Your task to perform on an android device: Add "bose quietcomfort 35" to the cart on bestbuy, then select checkout. Image 0: 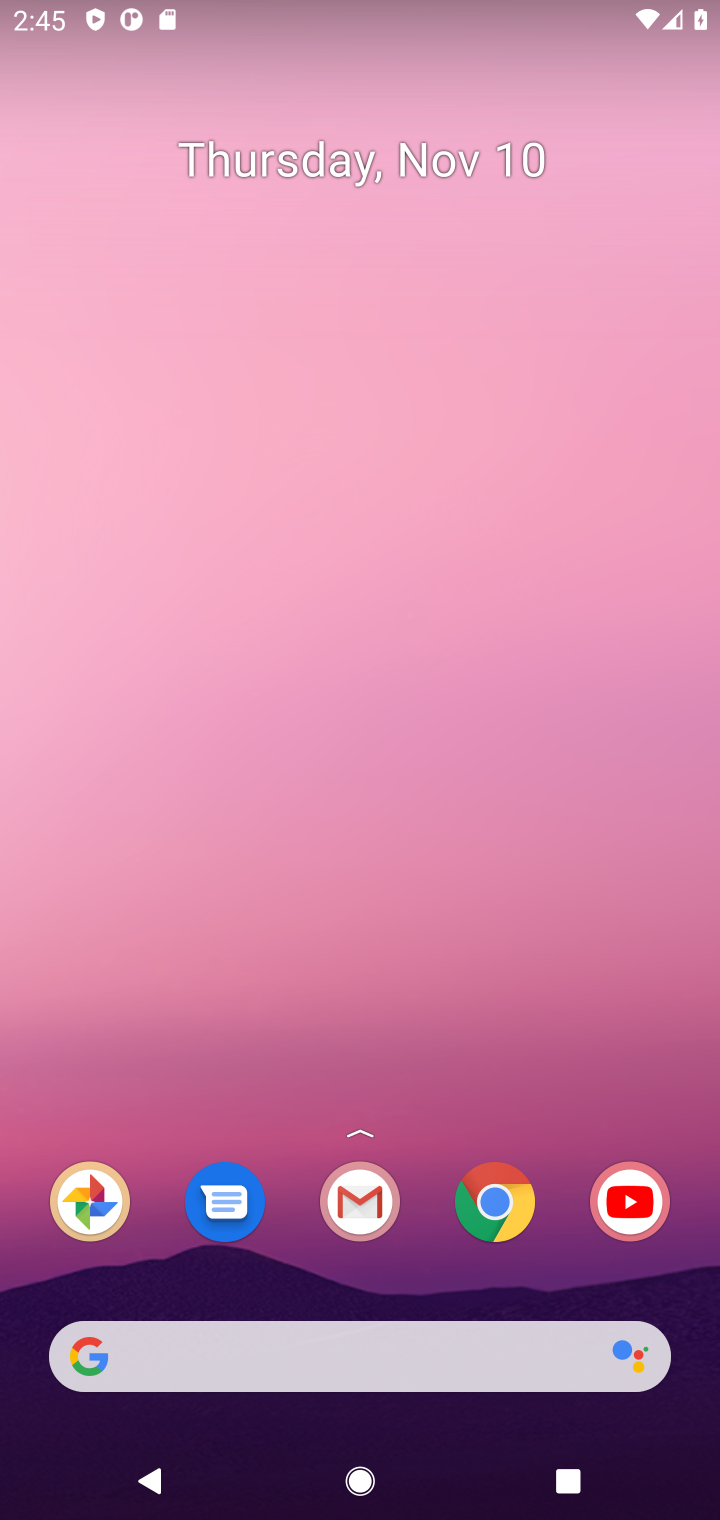
Step 0: click (493, 1184)
Your task to perform on an android device: Add "bose quietcomfort 35" to the cart on bestbuy, then select checkout. Image 1: 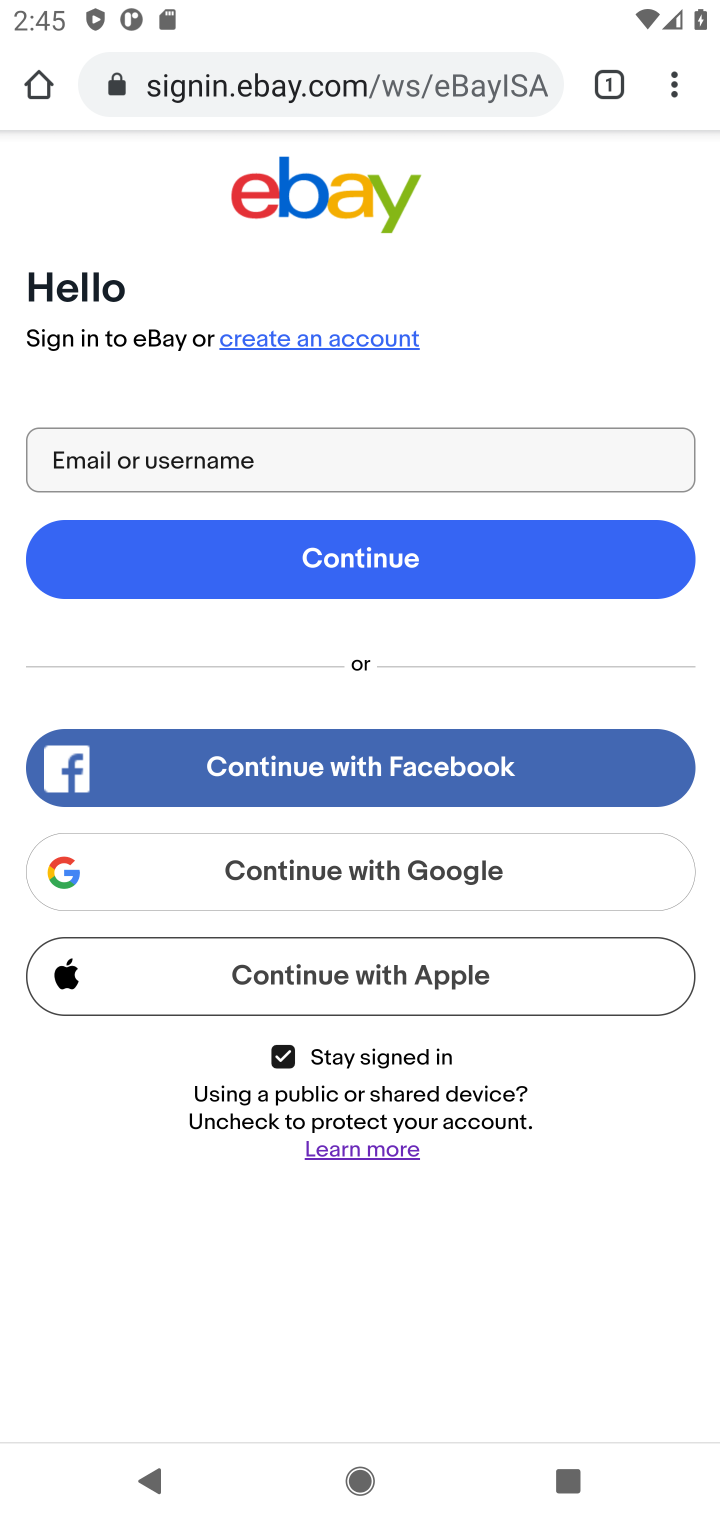
Step 1: click (513, 79)
Your task to perform on an android device: Add "bose quietcomfort 35" to the cart on bestbuy, then select checkout. Image 2: 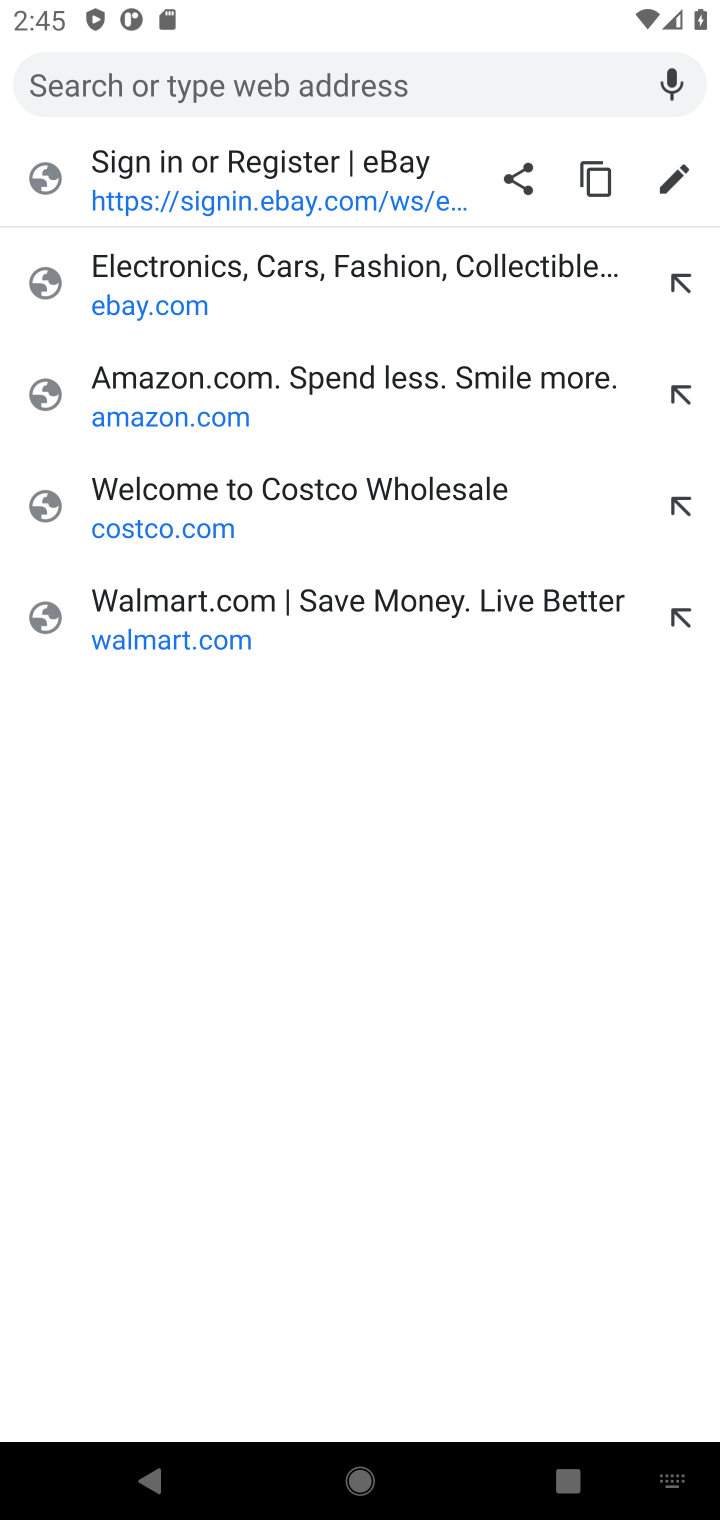
Step 2: type "bestbuy"
Your task to perform on an android device: Add "bose quietcomfort 35" to the cart on bestbuy, then select checkout. Image 3: 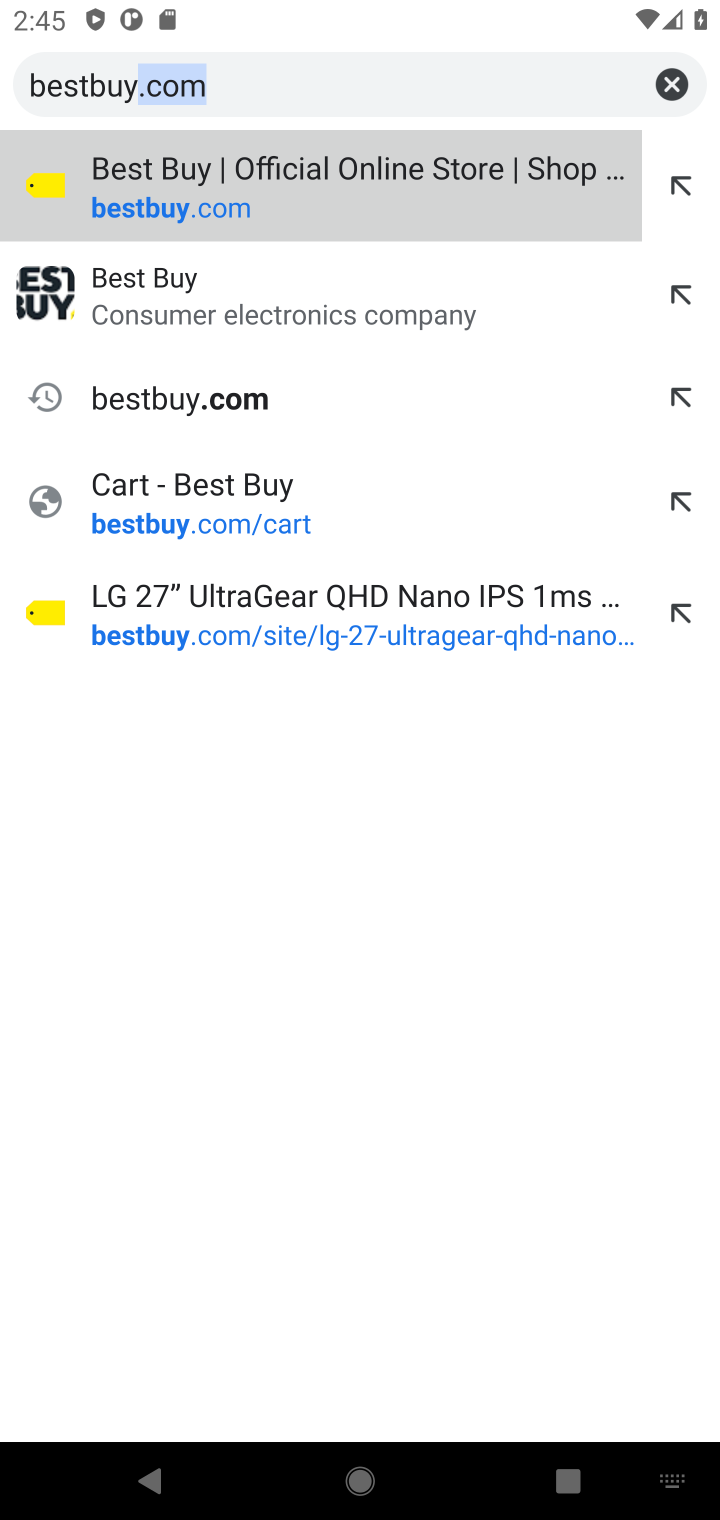
Step 3: click (401, 87)
Your task to perform on an android device: Add "bose quietcomfort 35" to the cart on bestbuy, then select checkout. Image 4: 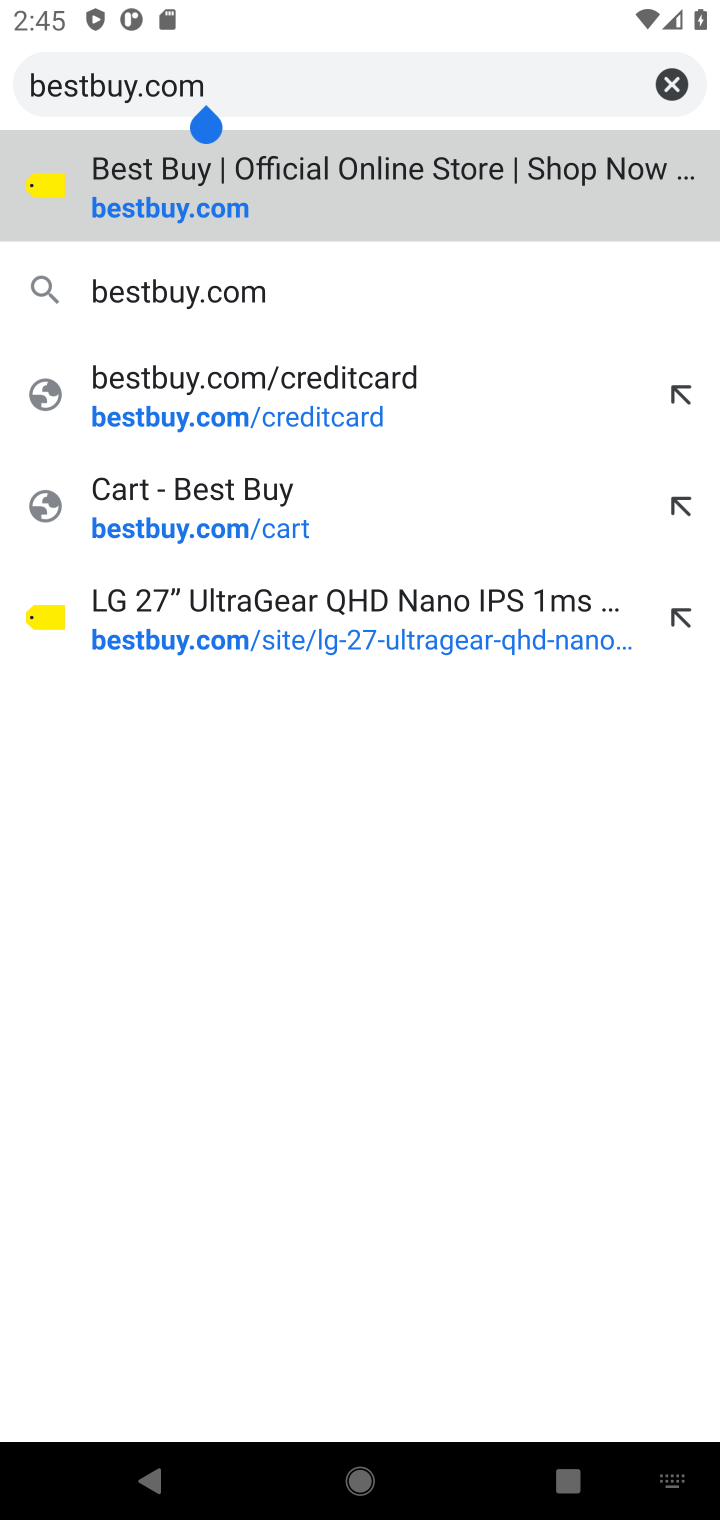
Step 4: click (227, 285)
Your task to perform on an android device: Add "bose quietcomfort 35" to the cart on bestbuy, then select checkout. Image 5: 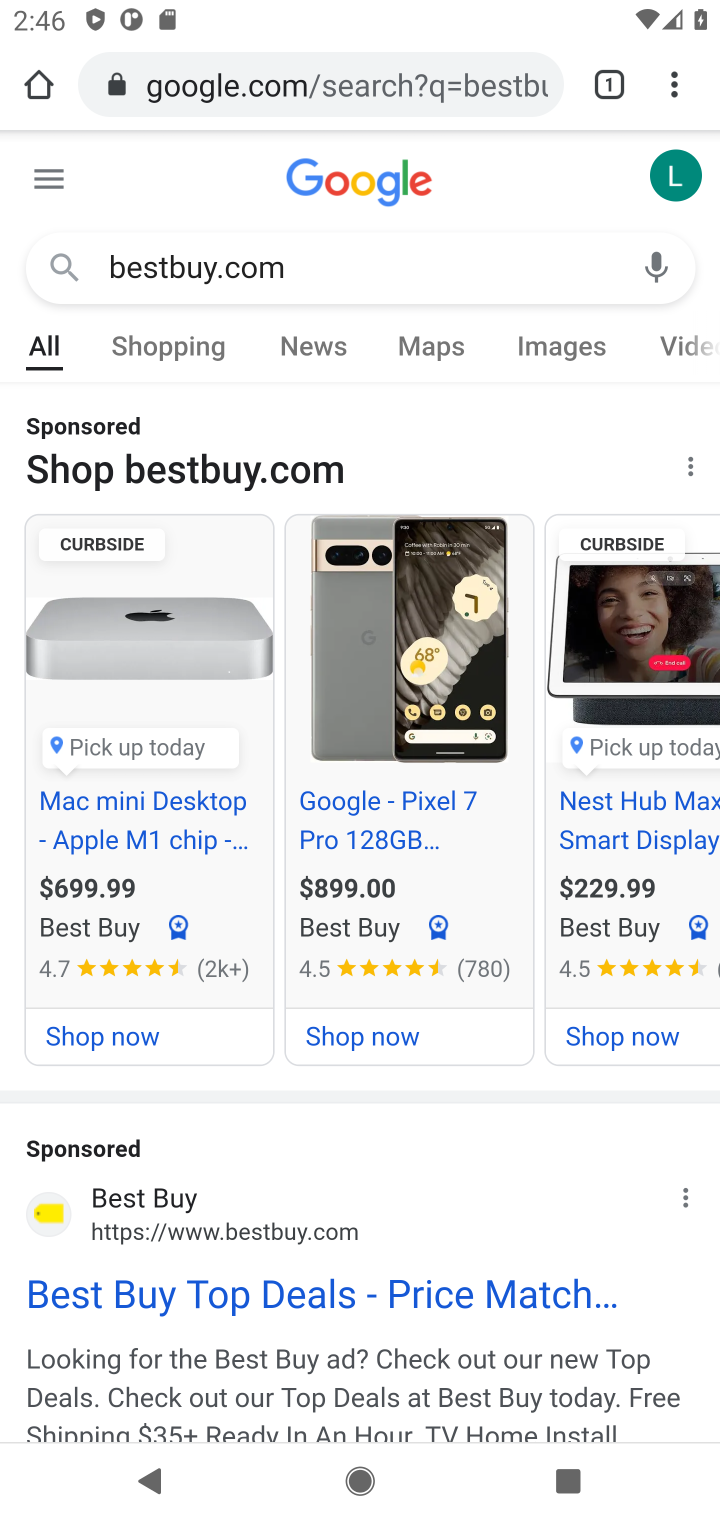
Step 5: click (180, 1236)
Your task to perform on an android device: Add "bose quietcomfort 35" to the cart on bestbuy, then select checkout. Image 6: 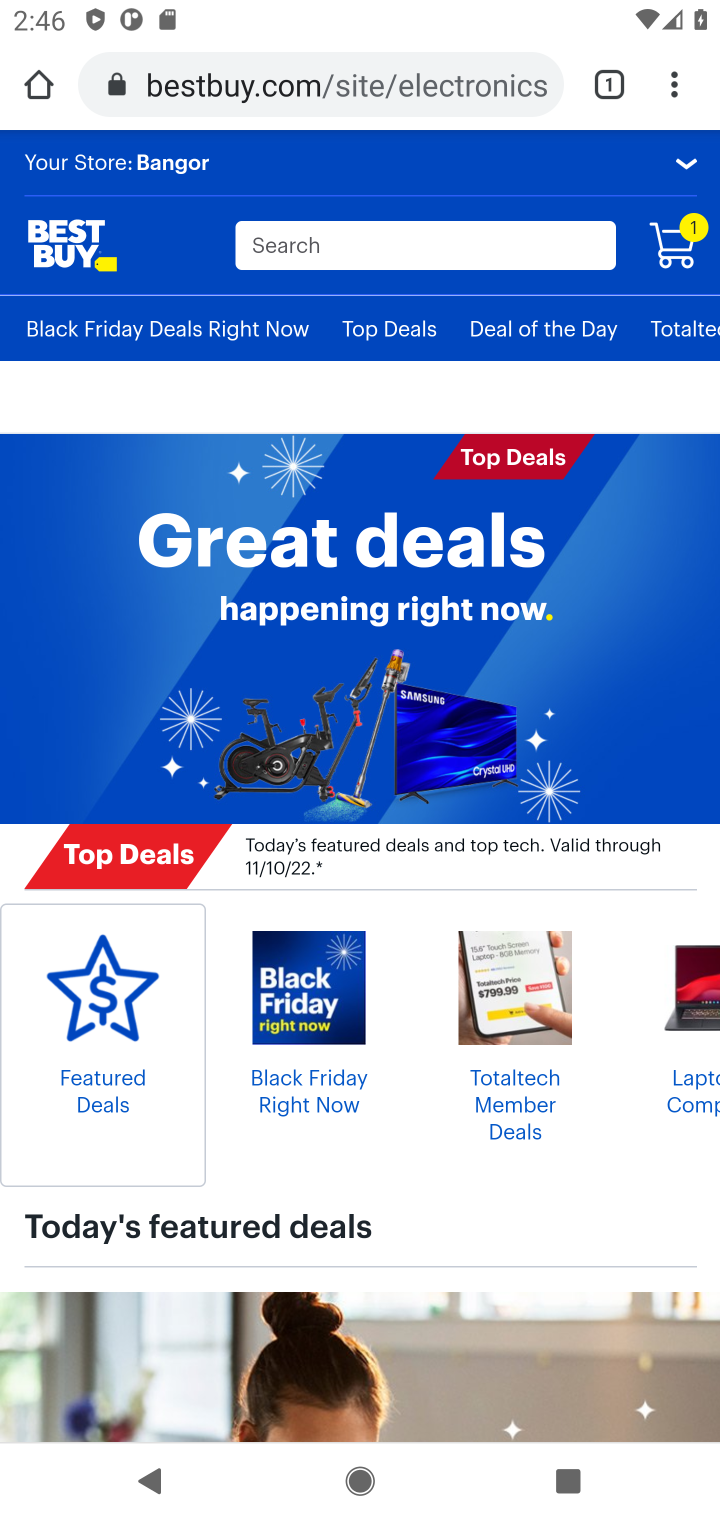
Step 6: click (413, 268)
Your task to perform on an android device: Add "bose quietcomfort 35" to the cart on bestbuy, then select checkout. Image 7: 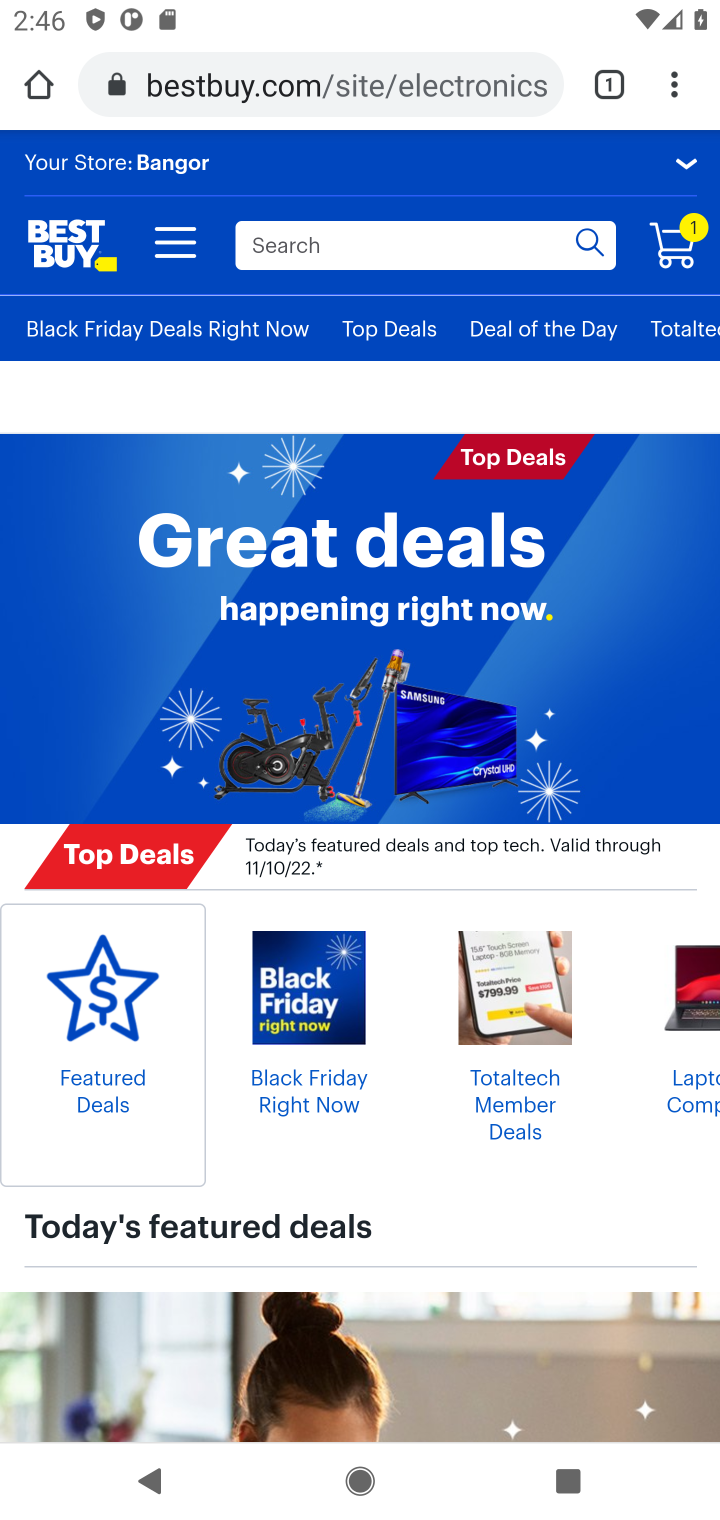
Step 7: click (431, 244)
Your task to perform on an android device: Add "bose quietcomfort 35" to the cart on bestbuy, then select checkout. Image 8: 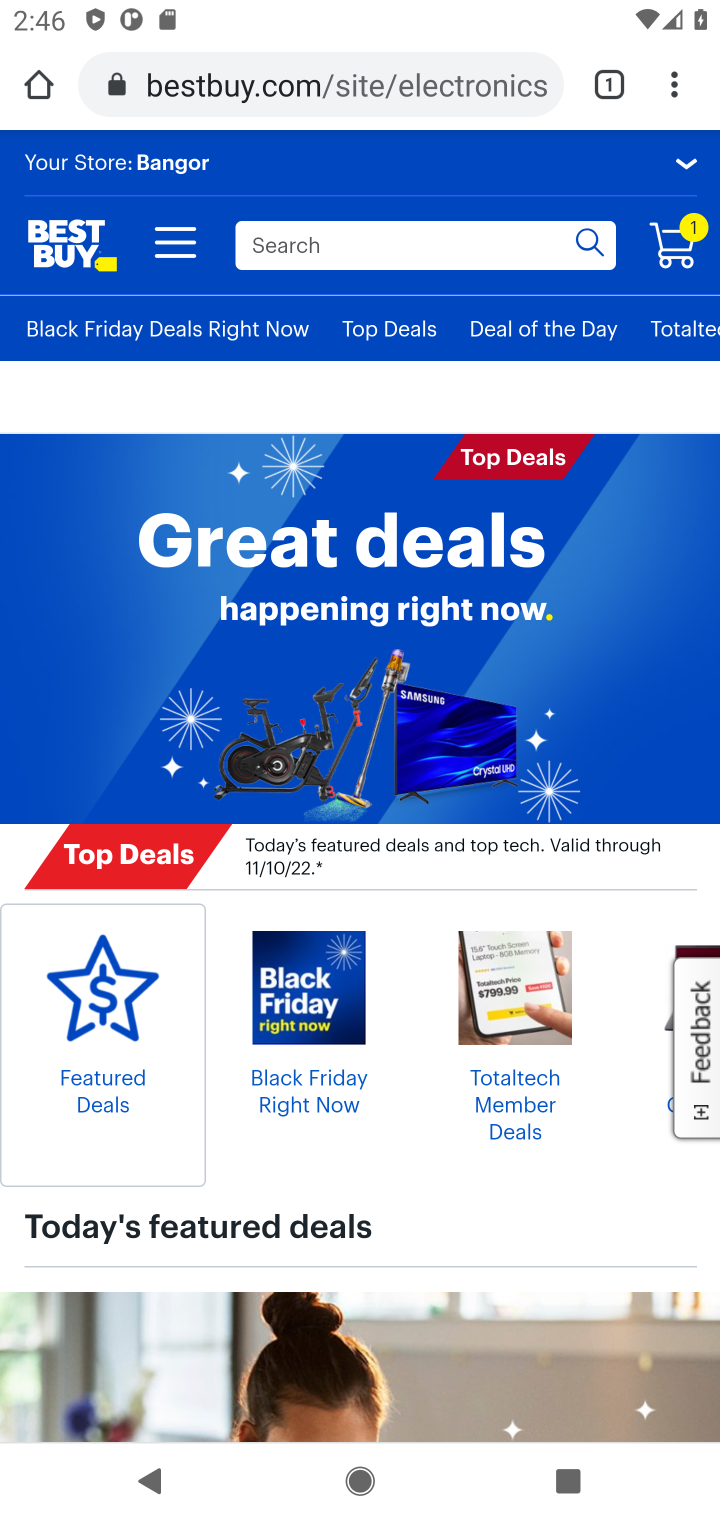
Step 8: type "bose quietcomfort 35"
Your task to perform on an android device: Add "bose quietcomfort 35" to the cart on bestbuy, then select checkout. Image 9: 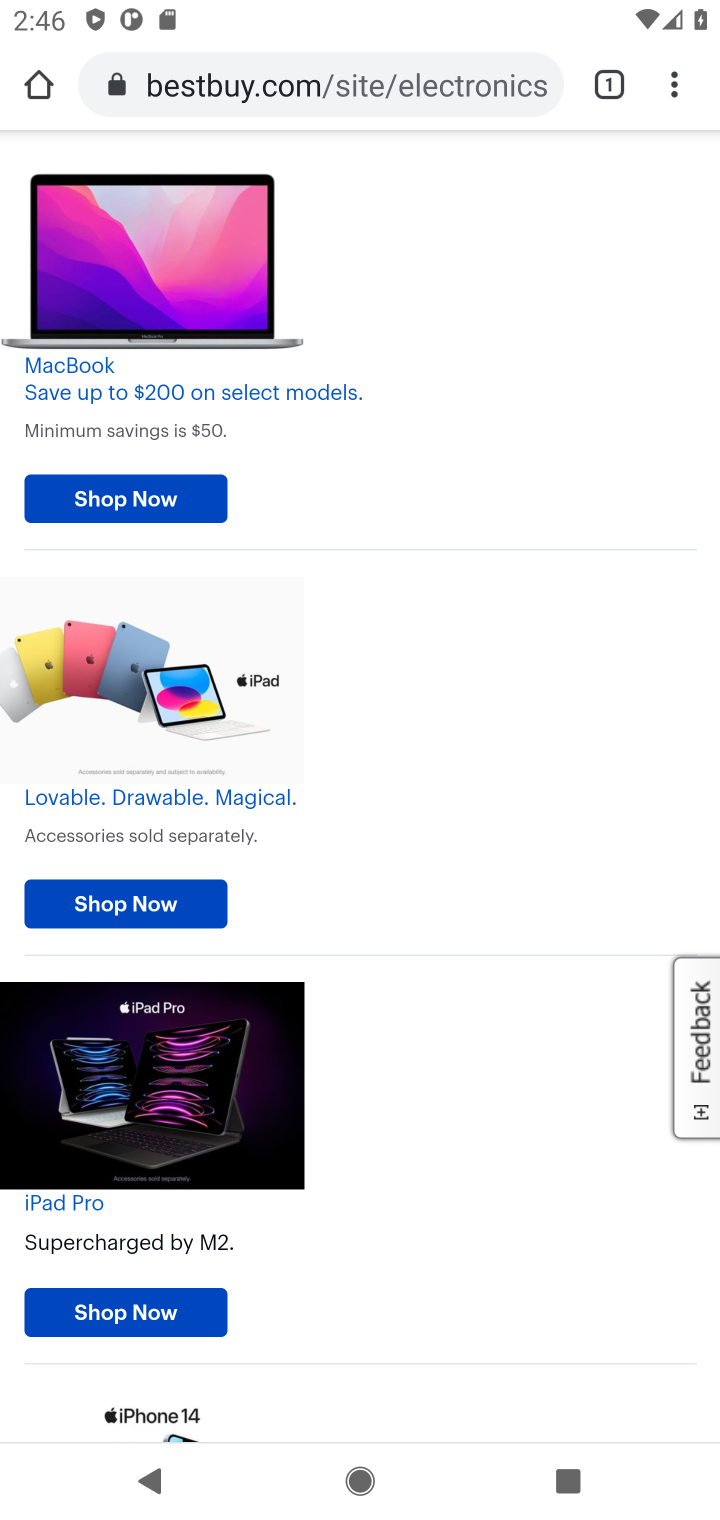
Step 9: drag from (275, 536) to (702, 480)
Your task to perform on an android device: Add "bose quietcomfort 35" to the cart on bestbuy, then select checkout. Image 10: 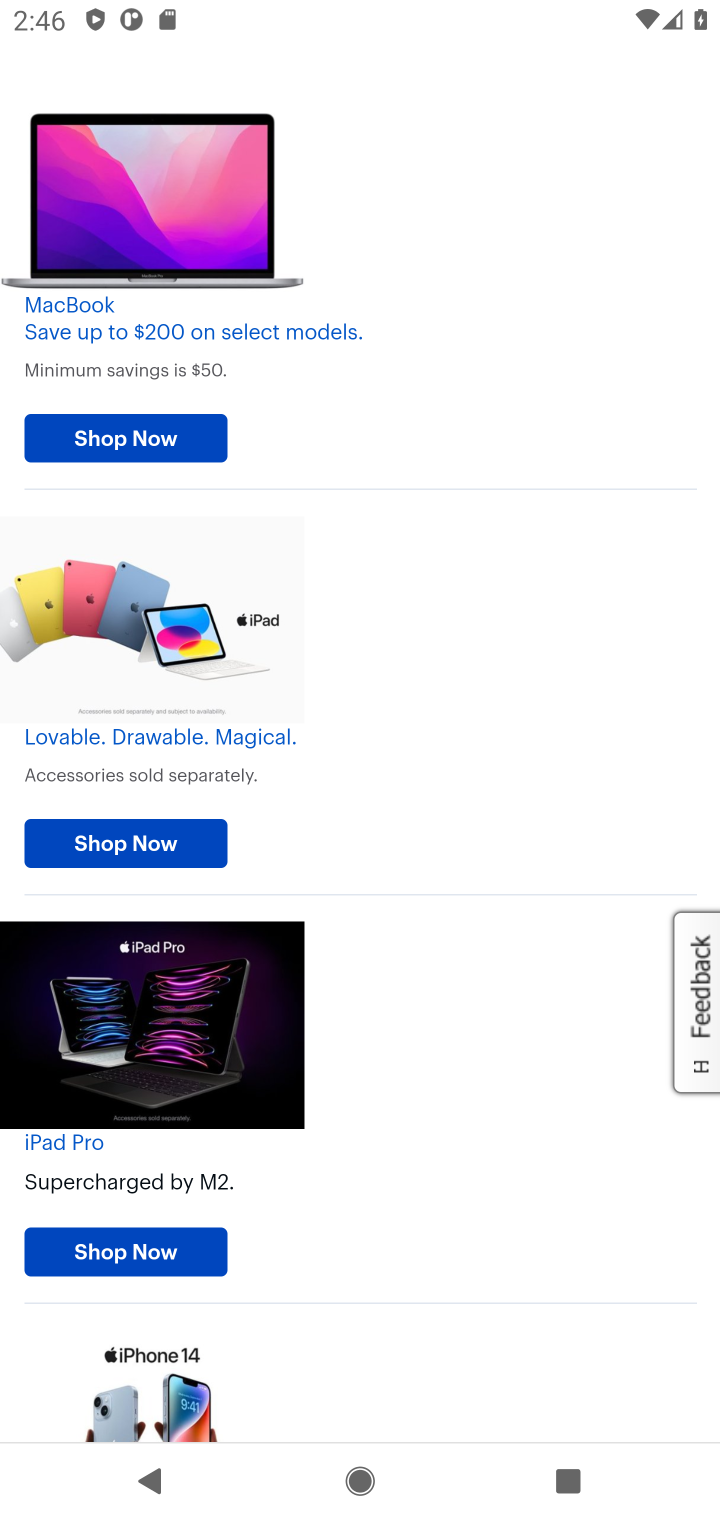
Step 10: drag from (685, 1025) to (704, 1134)
Your task to perform on an android device: Add "bose quietcomfort 35" to the cart on bestbuy, then select checkout. Image 11: 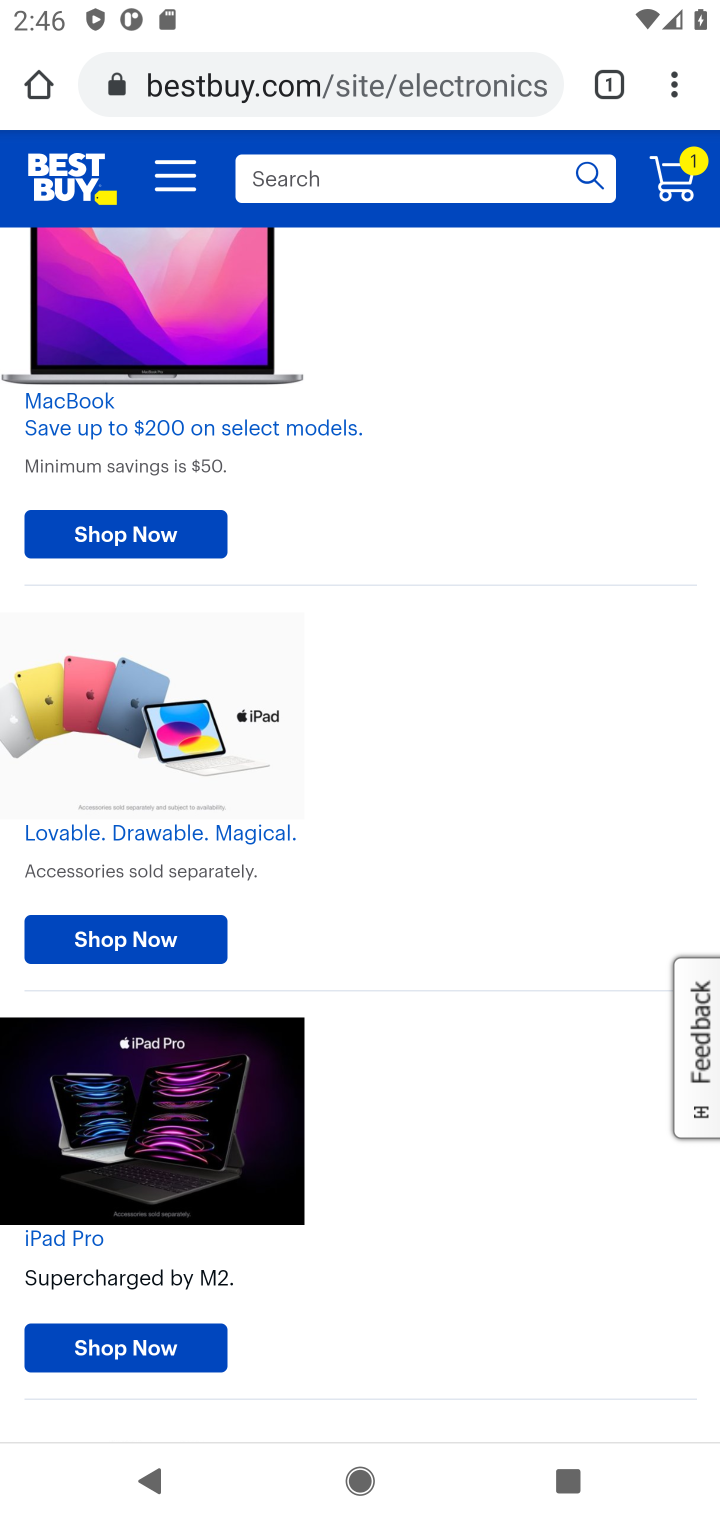
Step 11: click (360, 167)
Your task to perform on an android device: Add "bose quietcomfort 35" to the cart on bestbuy, then select checkout. Image 12: 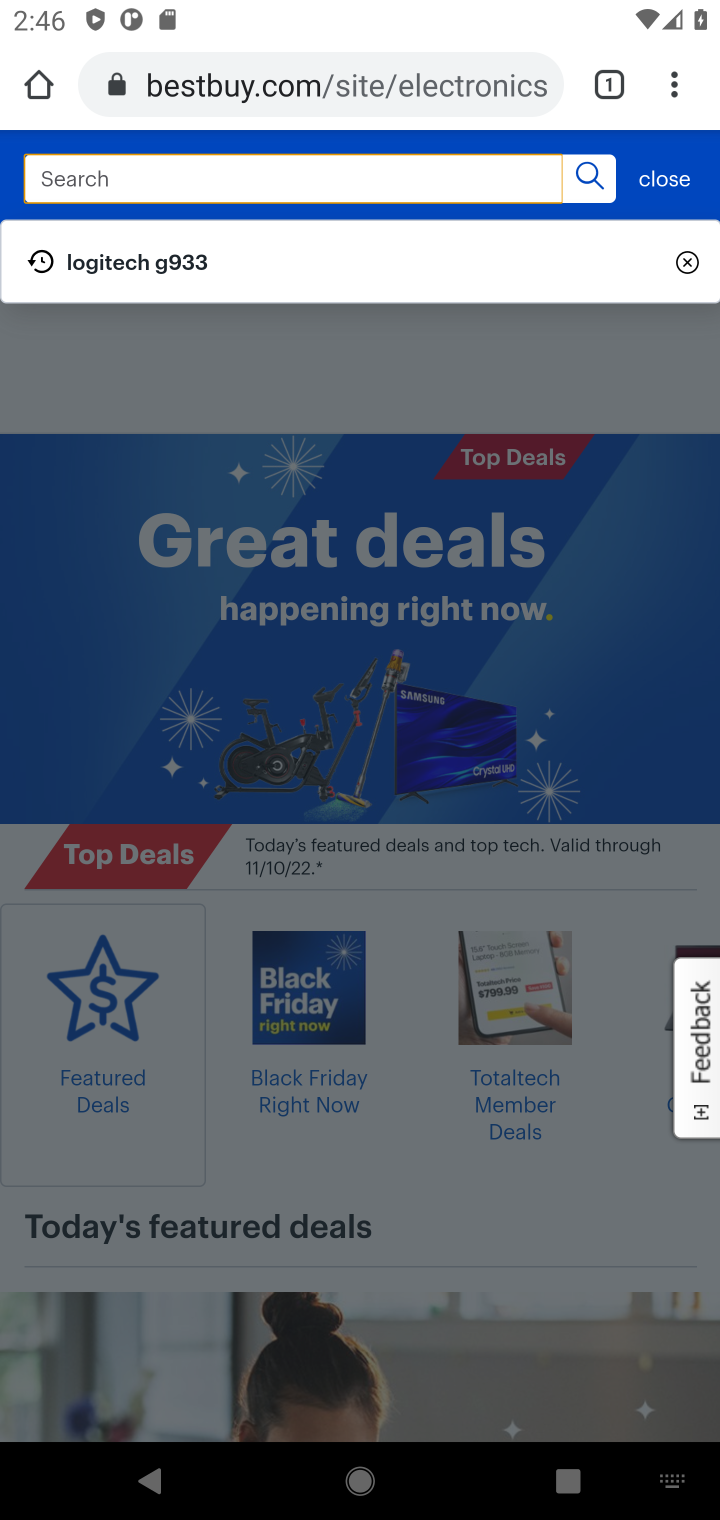
Step 12: type "bose quietcomfort 35"
Your task to perform on an android device: Add "bose quietcomfort 35" to the cart on bestbuy, then select checkout. Image 13: 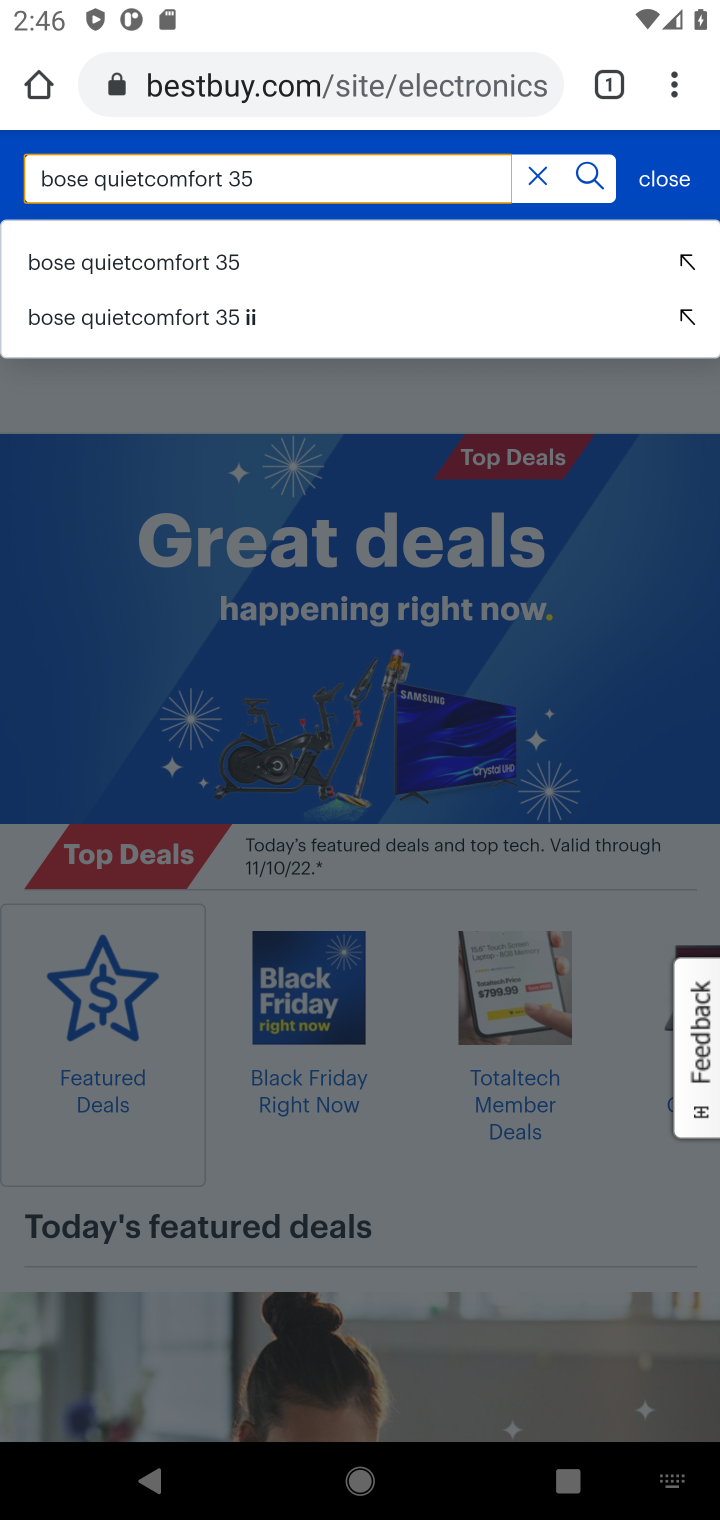
Step 13: click (208, 252)
Your task to perform on an android device: Add "bose quietcomfort 35" to the cart on bestbuy, then select checkout. Image 14: 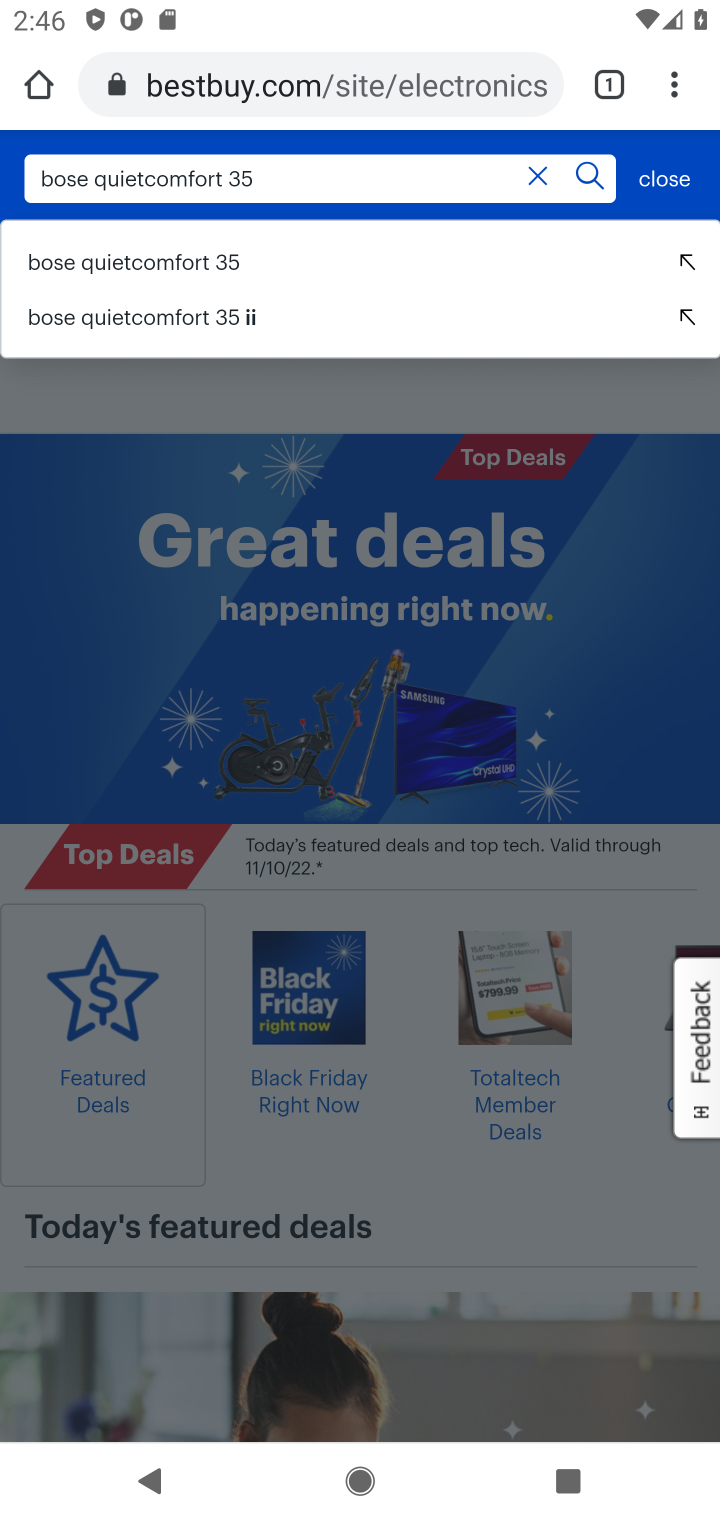
Step 14: click (192, 263)
Your task to perform on an android device: Add "bose quietcomfort 35" to the cart on bestbuy, then select checkout. Image 15: 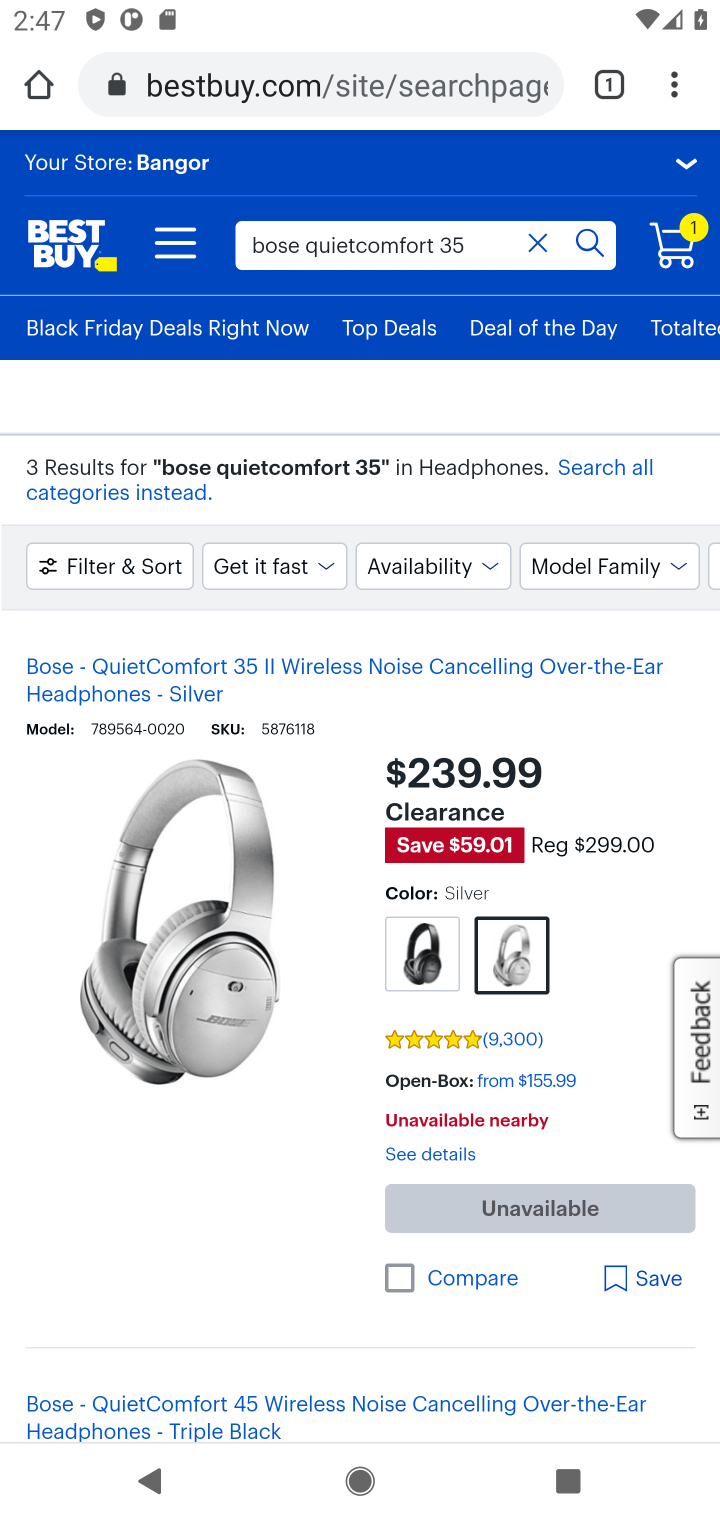
Step 15: click (184, 1011)
Your task to perform on an android device: Add "bose quietcomfort 35" to the cart on bestbuy, then select checkout. Image 16: 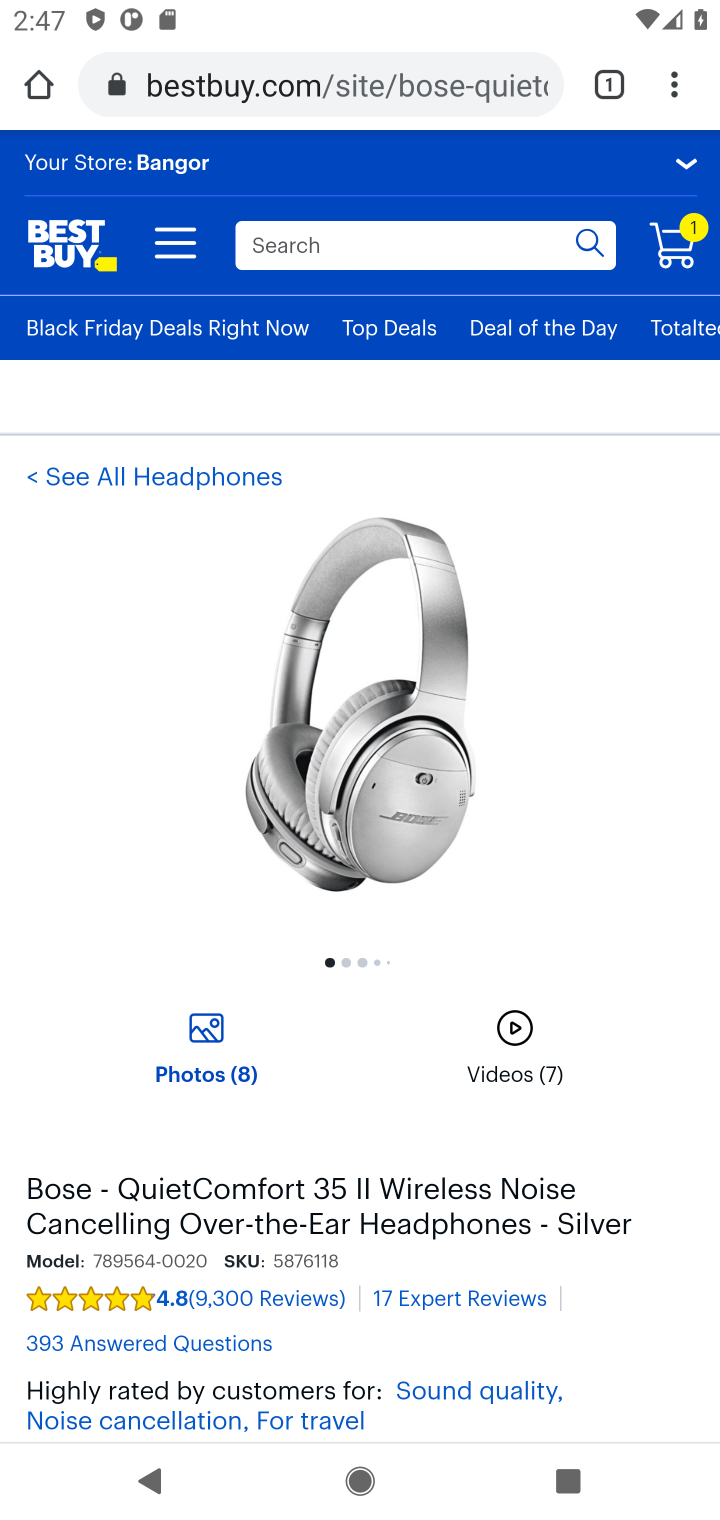
Step 16: drag from (618, 1299) to (504, 321)
Your task to perform on an android device: Add "bose quietcomfort 35" to the cart on bestbuy, then select checkout. Image 17: 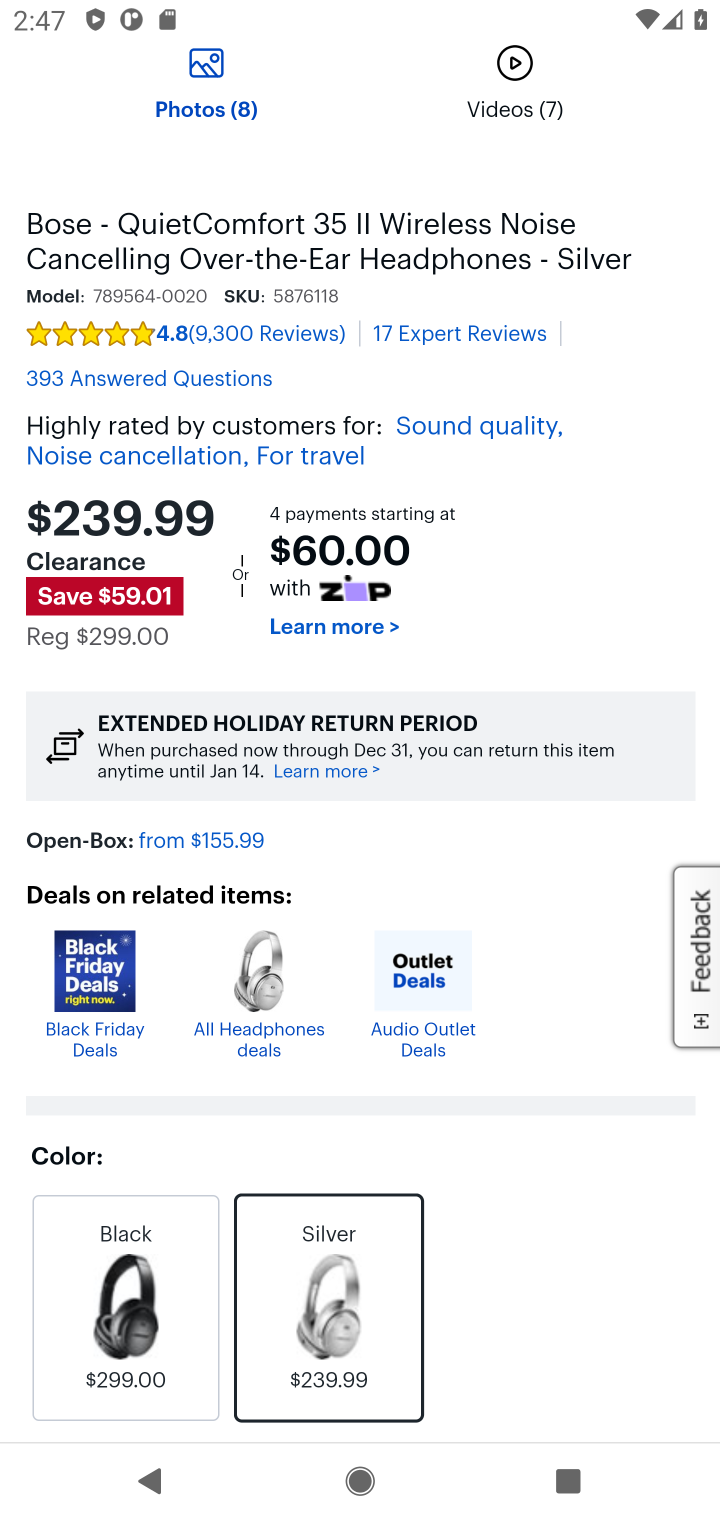
Step 17: drag from (573, 981) to (449, 484)
Your task to perform on an android device: Add "bose quietcomfort 35" to the cart on bestbuy, then select checkout. Image 18: 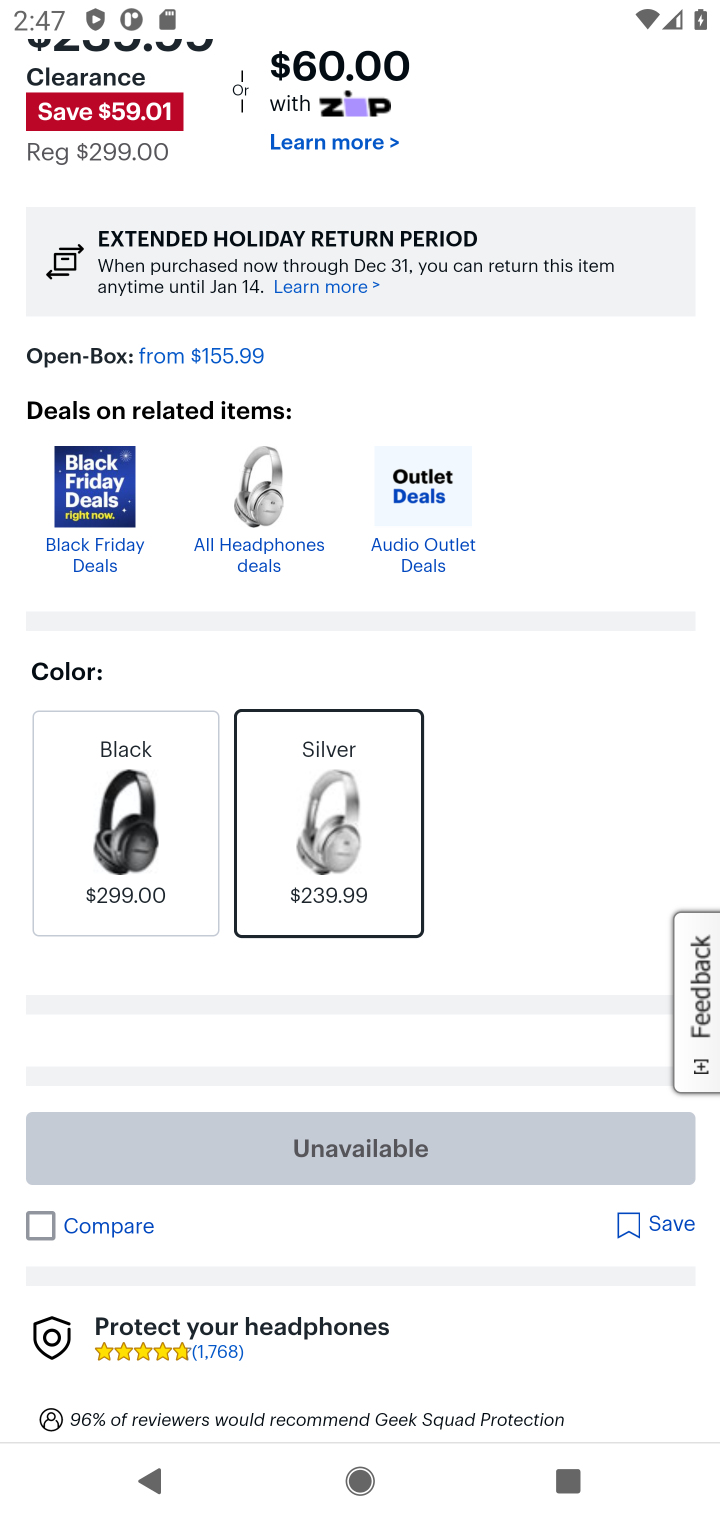
Step 18: press back button
Your task to perform on an android device: Add "bose quietcomfort 35" to the cart on bestbuy, then select checkout. Image 19: 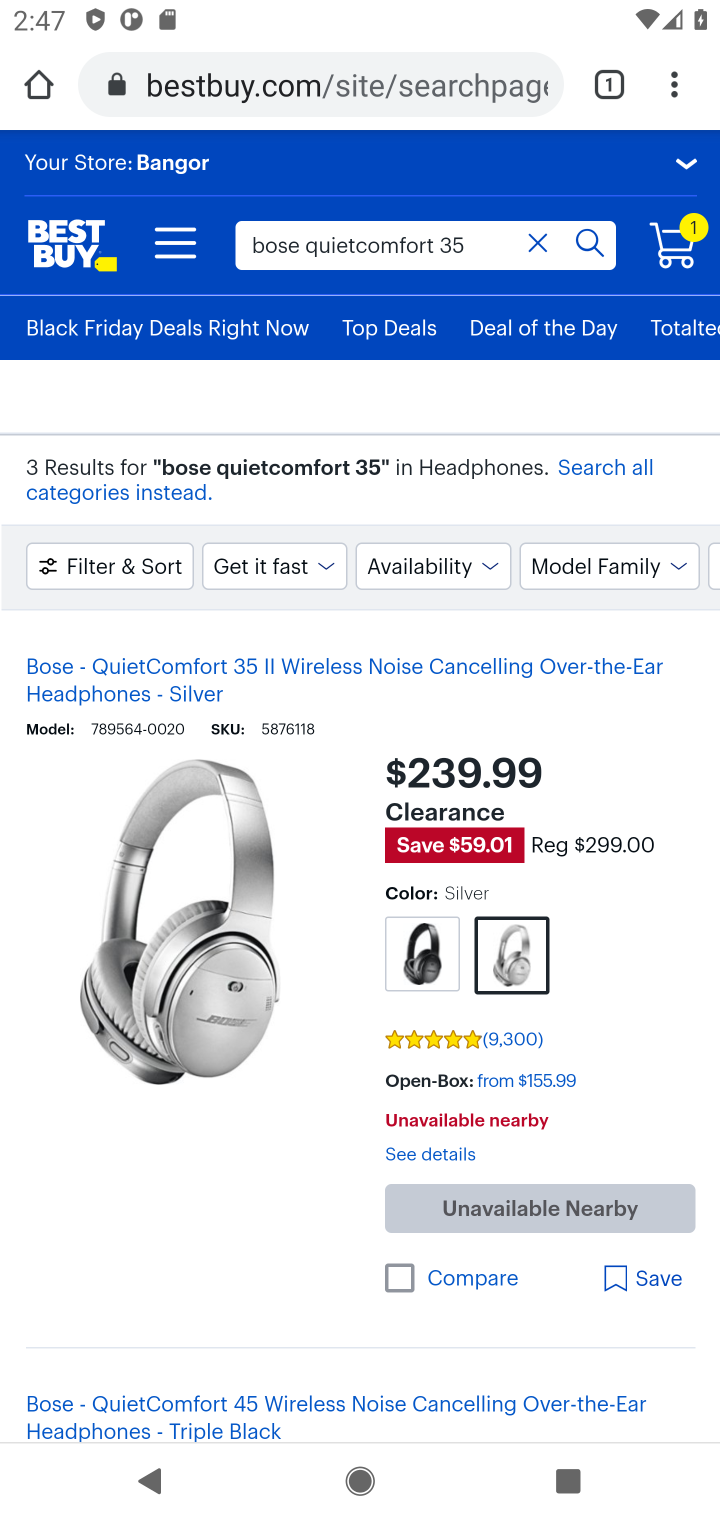
Step 19: drag from (195, 730) to (220, 653)
Your task to perform on an android device: Add "bose quietcomfort 35" to the cart on bestbuy, then select checkout. Image 20: 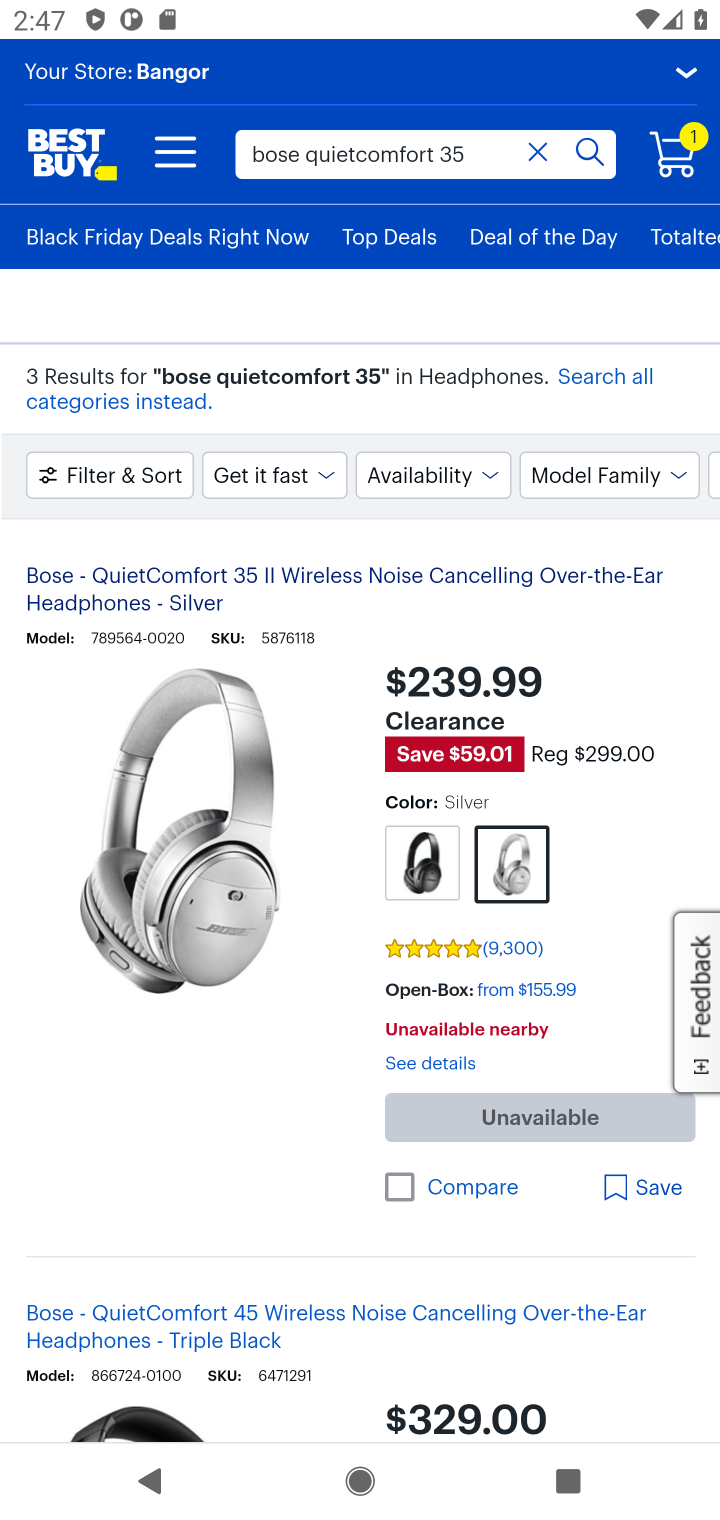
Step 20: drag from (506, 1248) to (434, 721)
Your task to perform on an android device: Add "bose quietcomfort 35" to the cart on bestbuy, then select checkout. Image 21: 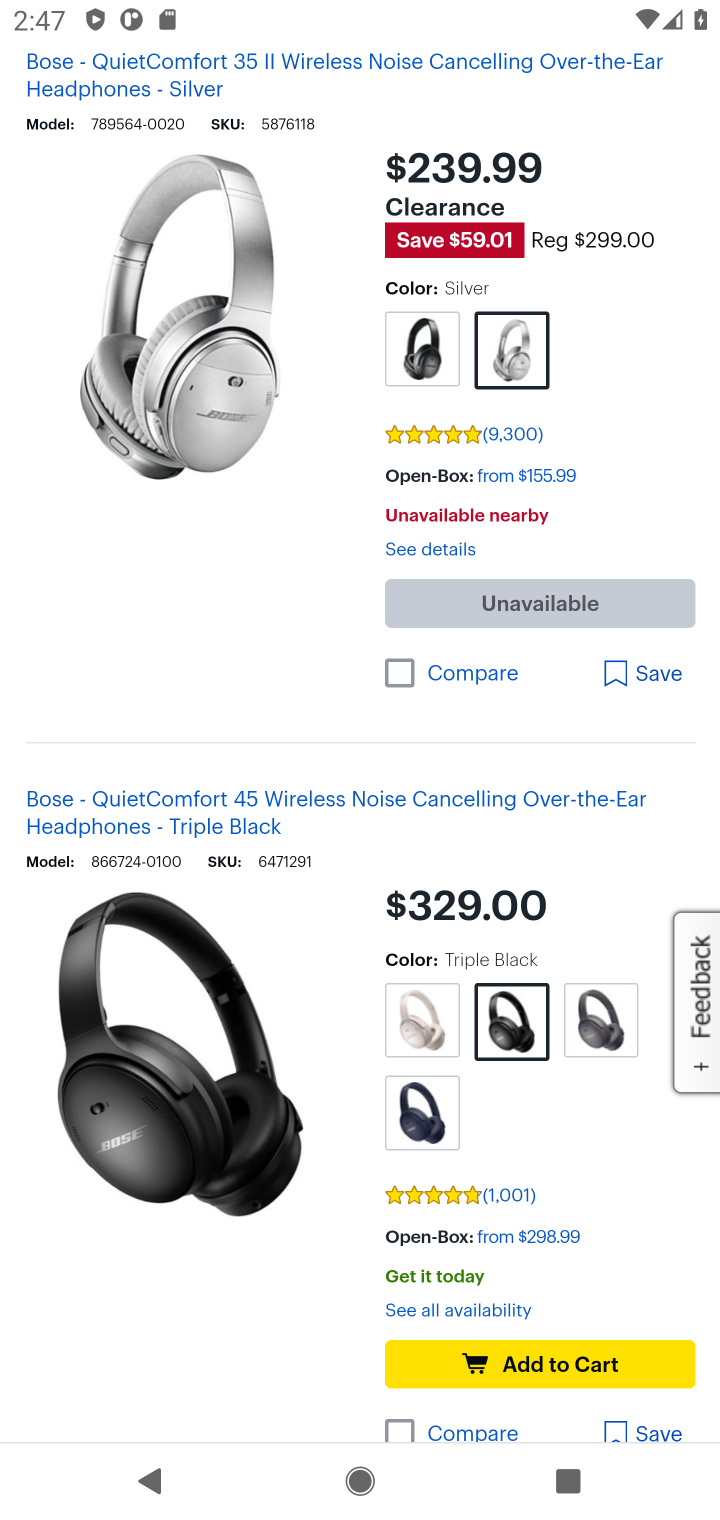
Step 21: drag from (276, 1281) to (174, 633)
Your task to perform on an android device: Add "bose quietcomfort 35" to the cart on bestbuy, then select checkout. Image 22: 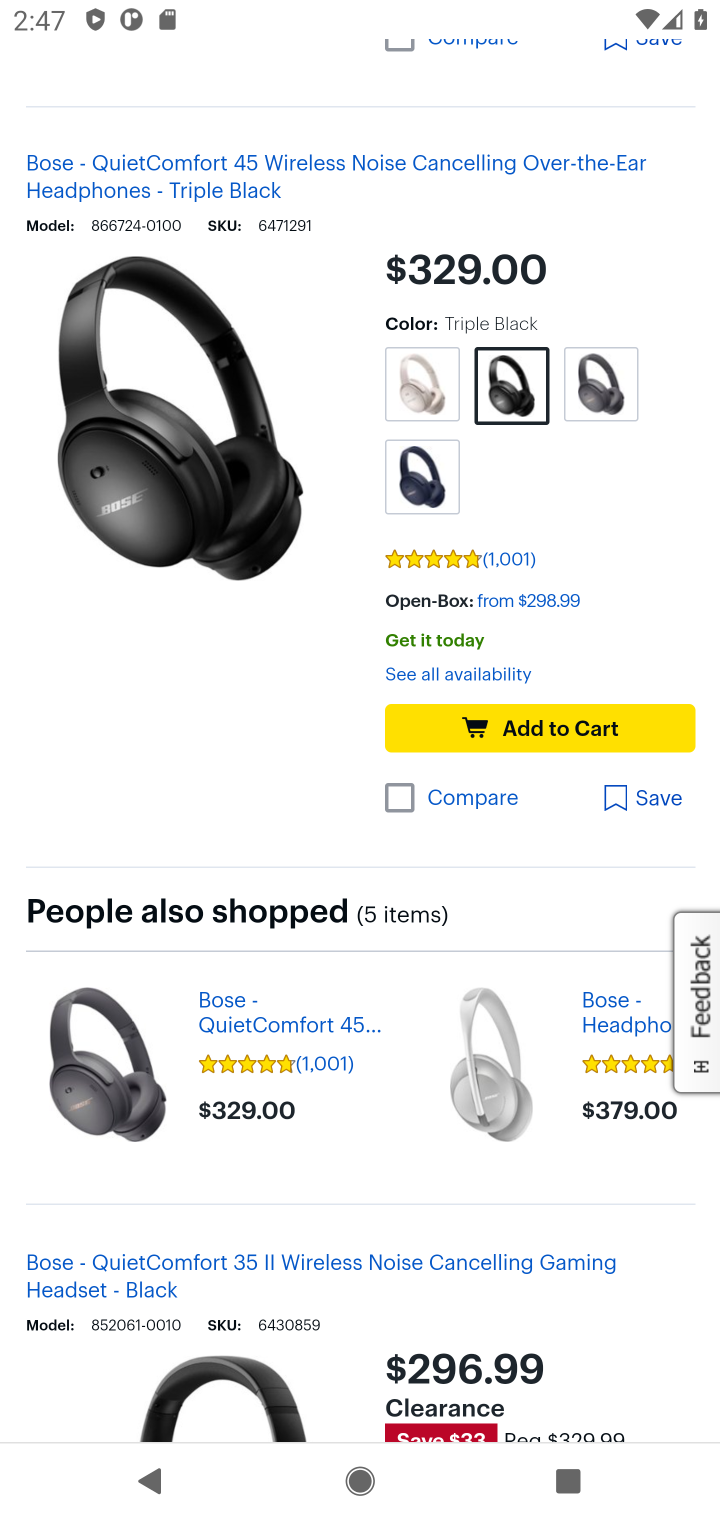
Step 22: drag from (189, 1154) to (297, 487)
Your task to perform on an android device: Add "bose quietcomfort 35" to the cart on bestbuy, then select checkout. Image 23: 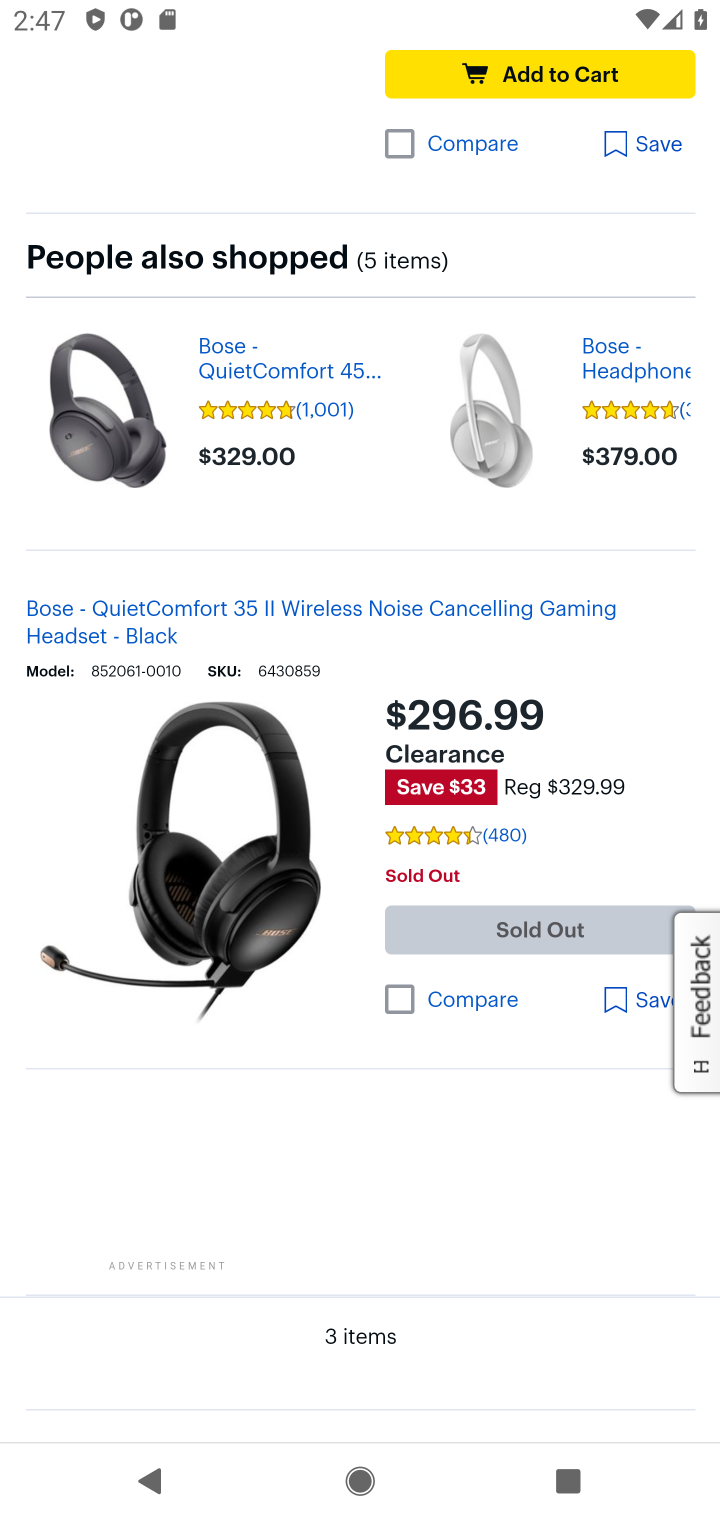
Step 23: click (144, 783)
Your task to perform on an android device: Add "bose quietcomfort 35" to the cart on bestbuy, then select checkout. Image 24: 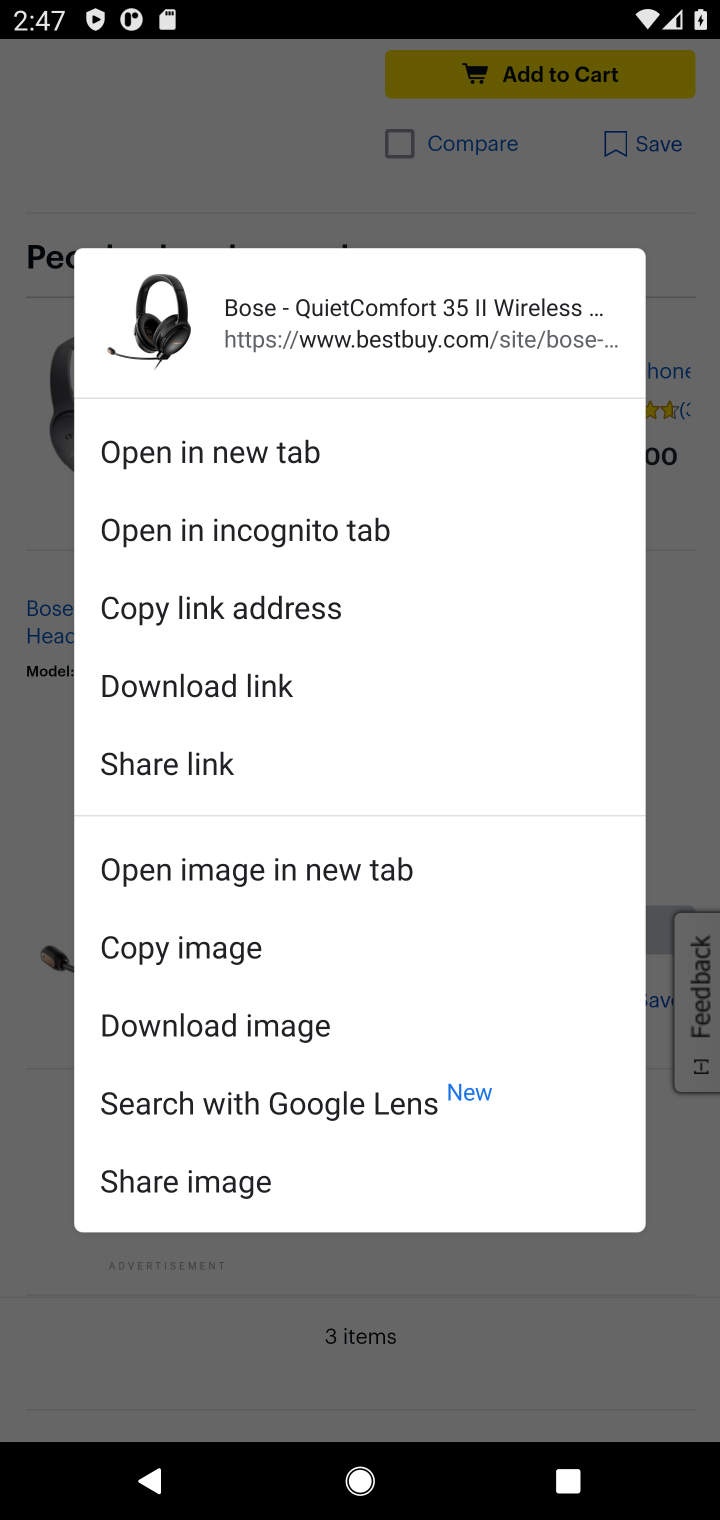
Step 24: press back button
Your task to perform on an android device: Add "bose quietcomfort 35" to the cart on bestbuy, then select checkout. Image 25: 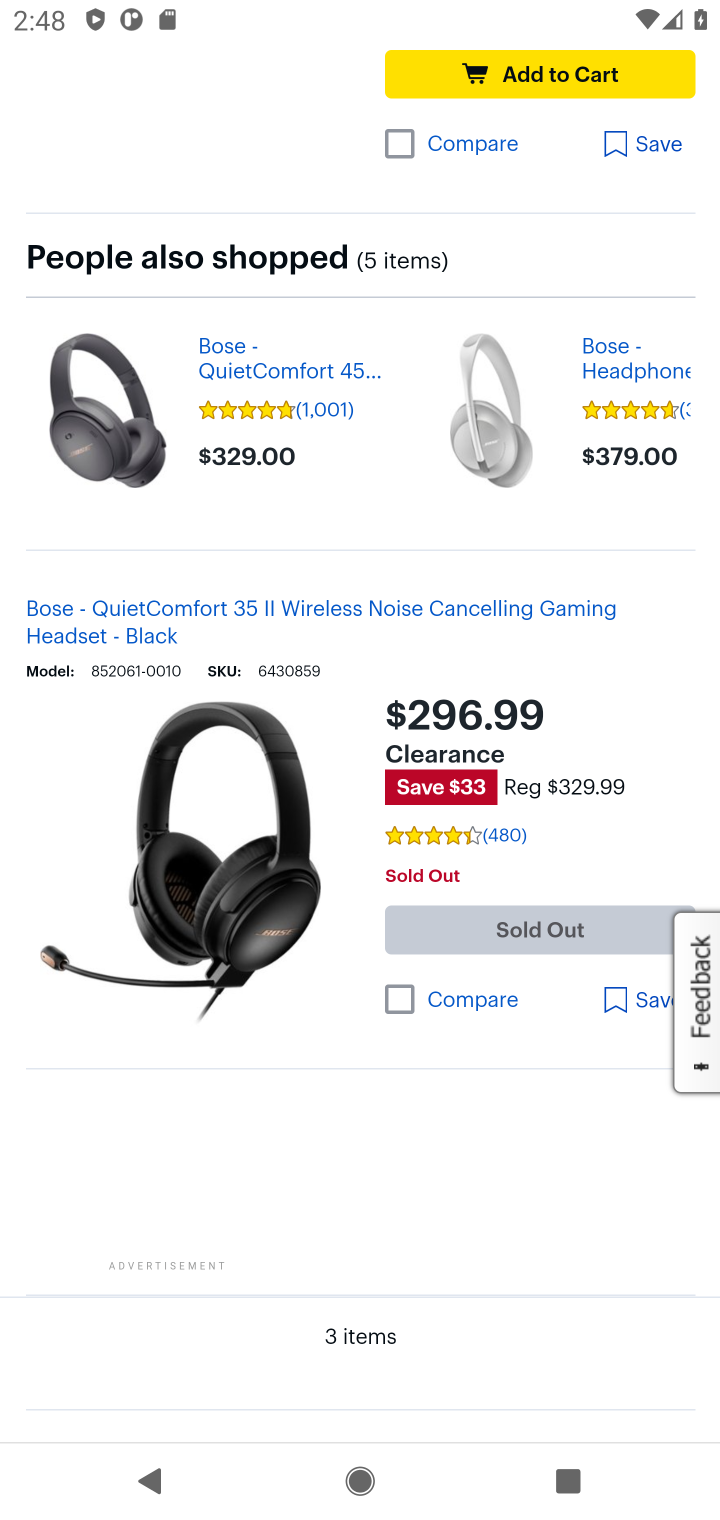
Step 25: drag from (228, 1046) to (434, 378)
Your task to perform on an android device: Add "bose quietcomfort 35" to the cart on bestbuy, then select checkout. Image 26: 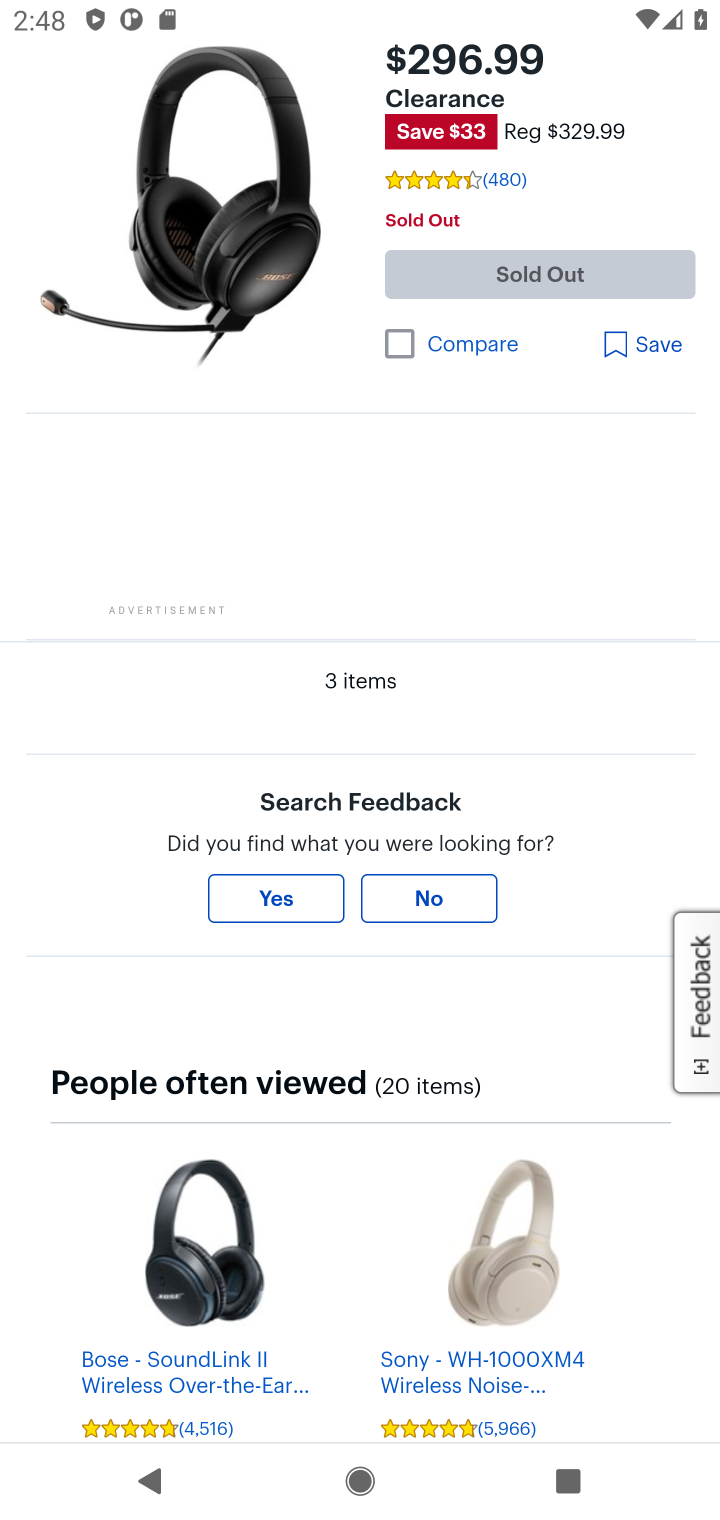
Step 26: drag from (324, 1138) to (493, 524)
Your task to perform on an android device: Add "bose quietcomfort 35" to the cart on bestbuy, then select checkout. Image 27: 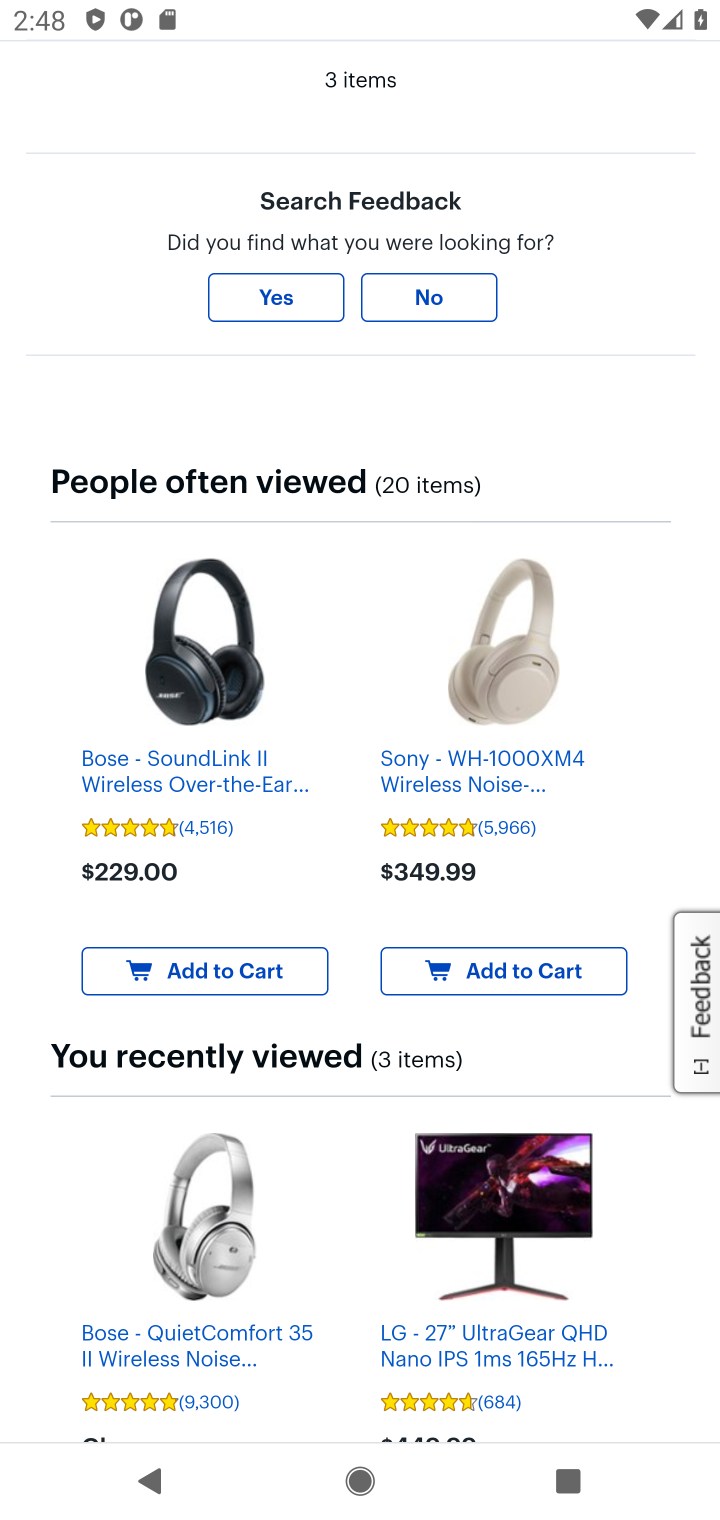
Step 27: click (173, 1196)
Your task to perform on an android device: Add "bose quietcomfort 35" to the cart on bestbuy, then select checkout. Image 28: 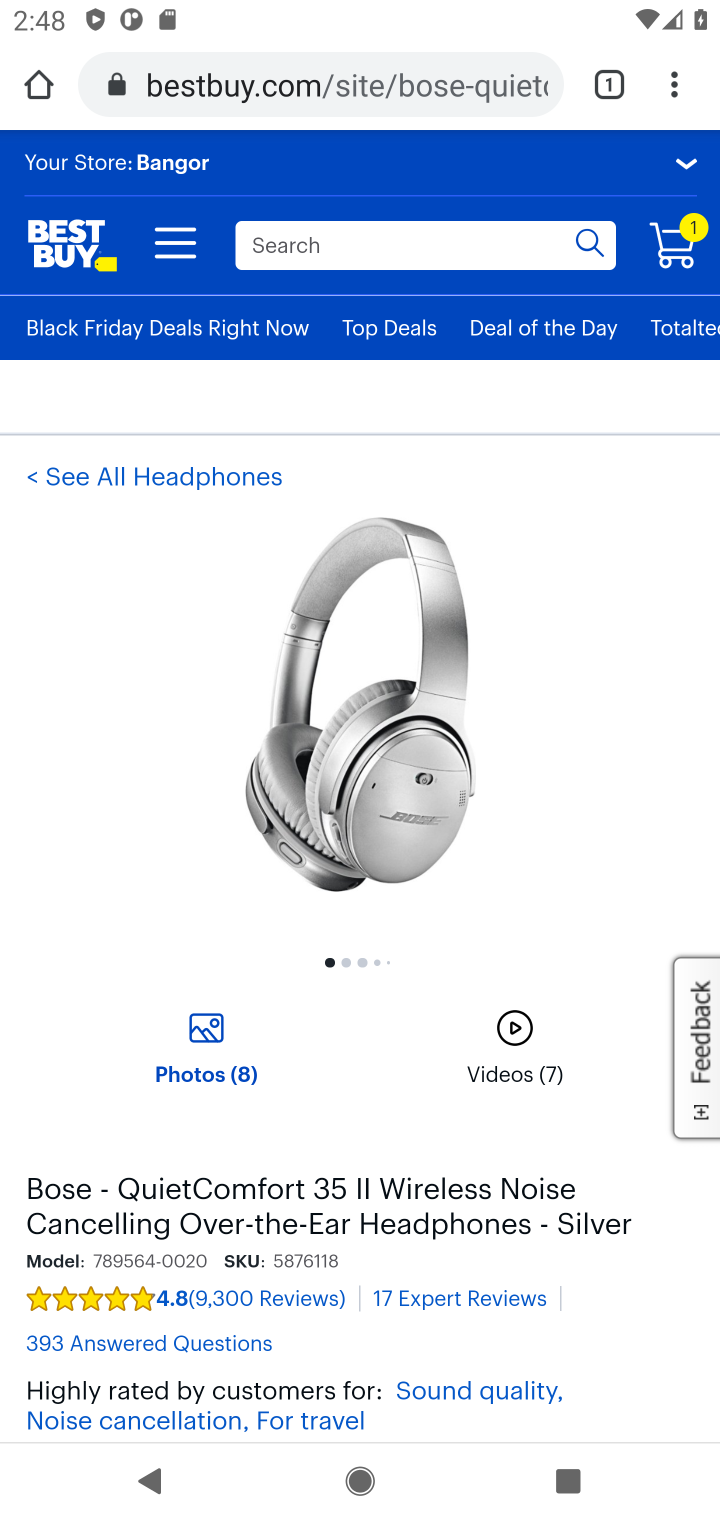
Step 28: drag from (499, 905) to (596, 490)
Your task to perform on an android device: Add "bose quietcomfort 35" to the cart on bestbuy, then select checkout. Image 29: 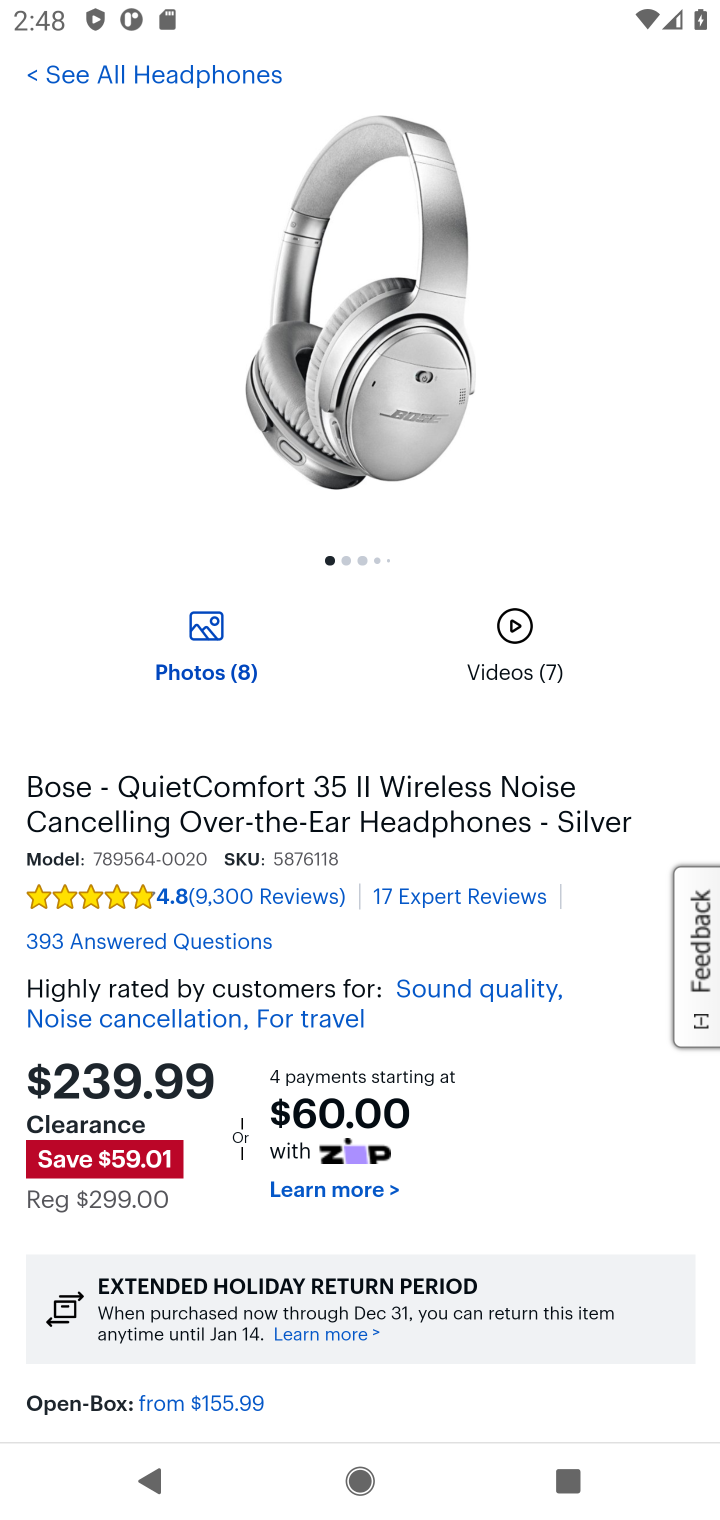
Step 29: drag from (567, 1092) to (537, 390)
Your task to perform on an android device: Add "bose quietcomfort 35" to the cart on bestbuy, then select checkout. Image 30: 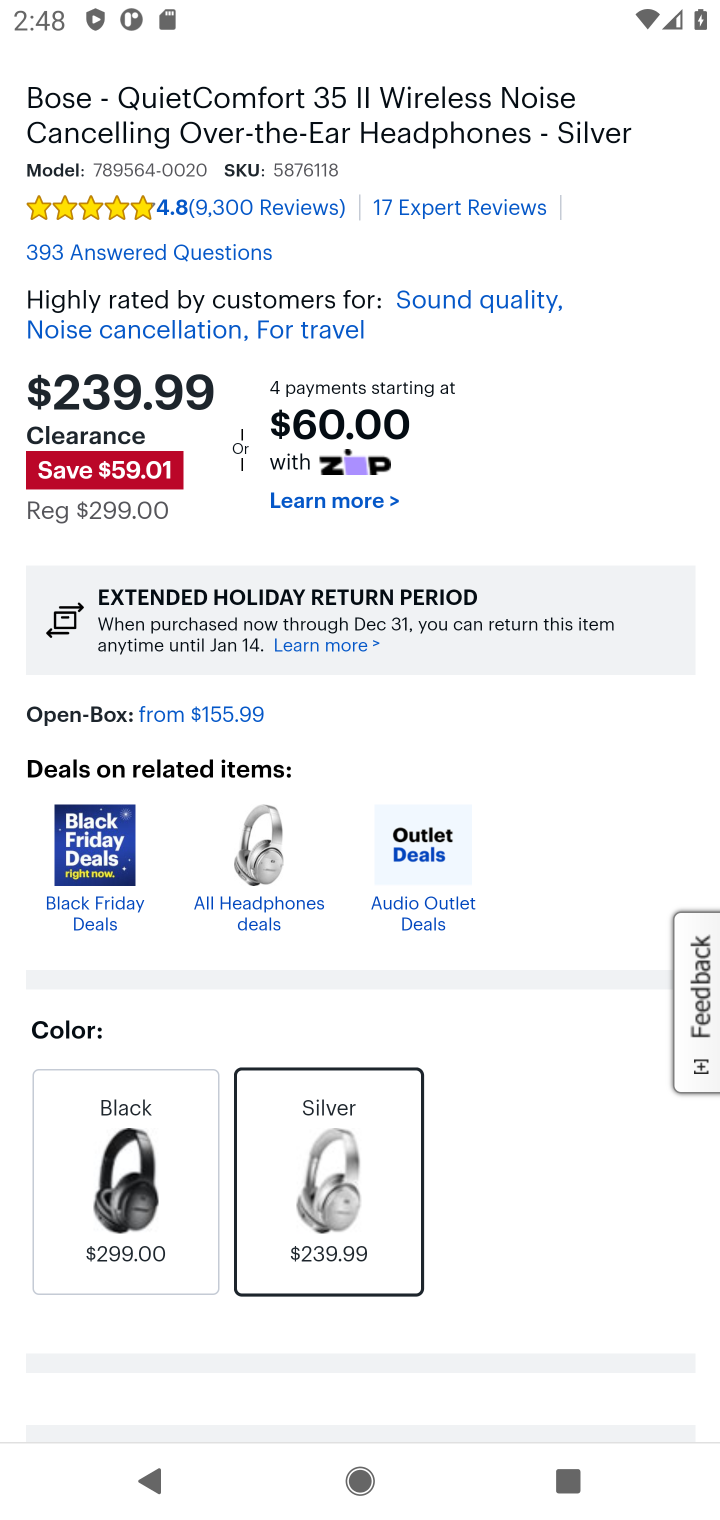
Step 30: drag from (587, 1198) to (542, 390)
Your task to perform on an android device: Add "bose quietcomfort 35" to the cart on bestbuy, then select checkout. Image 31: 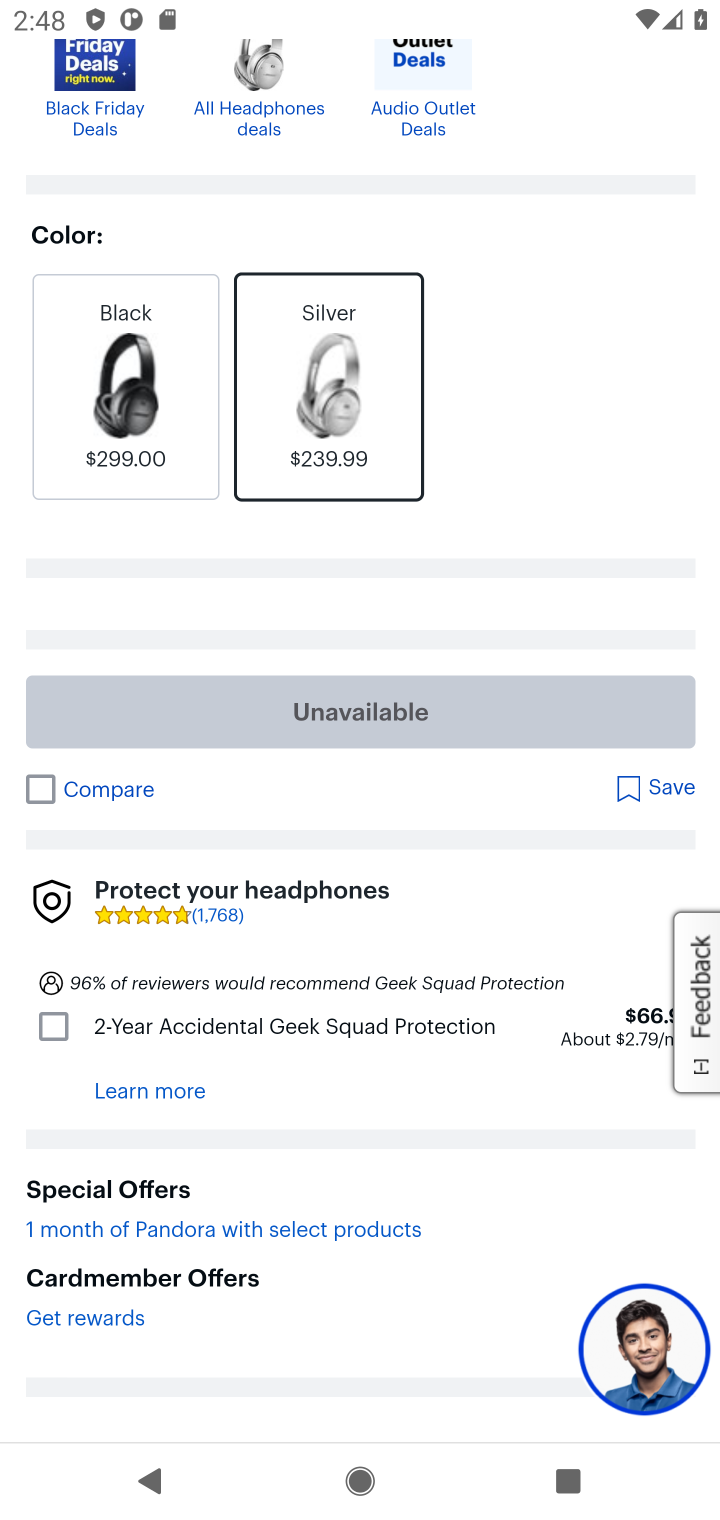
Step 31: drag from (524, 920) to (521, 620)
Your task to perform on an android device: Add "bose quietcomfort 35" to the cart on bestbuy, then select checkout. Image 32: 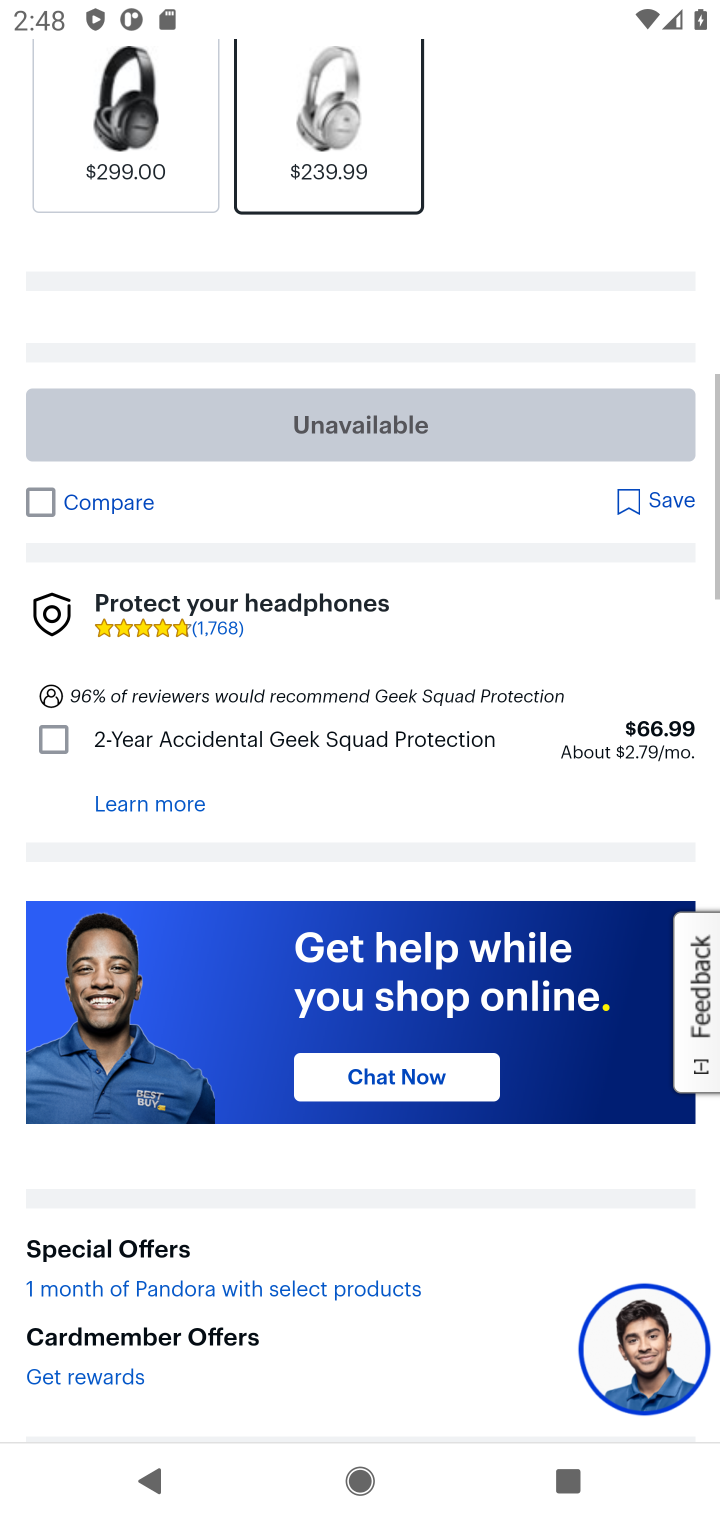
Step 32: press back button
Your task to perform on an android device: Add "bose quietcomfort 35" to the cart on bestbuy, then select checkout. Image 33: 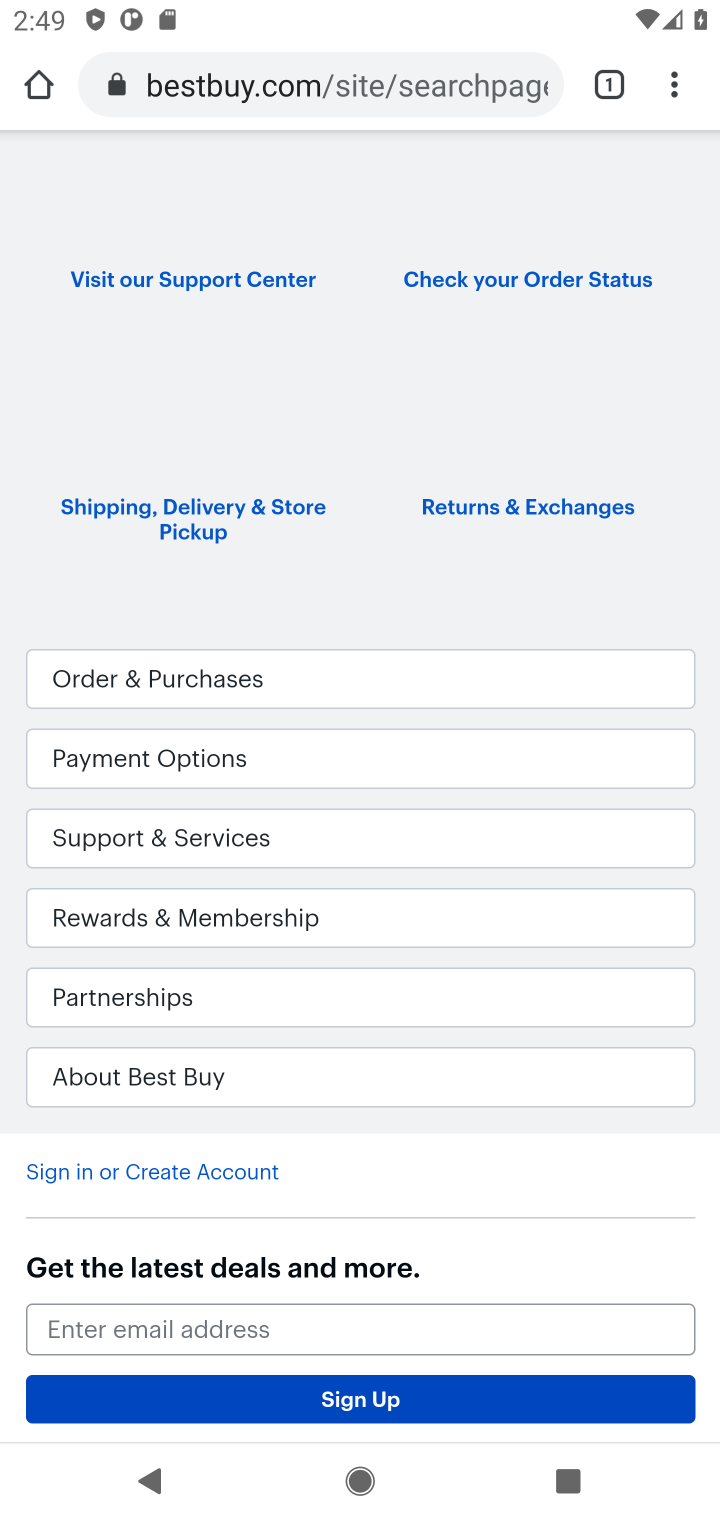
Step 33: drag from (497, 441) to (557, 1231)
Your task to perform on an android device: Add "bose quietcomfort 35" to the cart on bestbuy, then select checkout. Image 34: 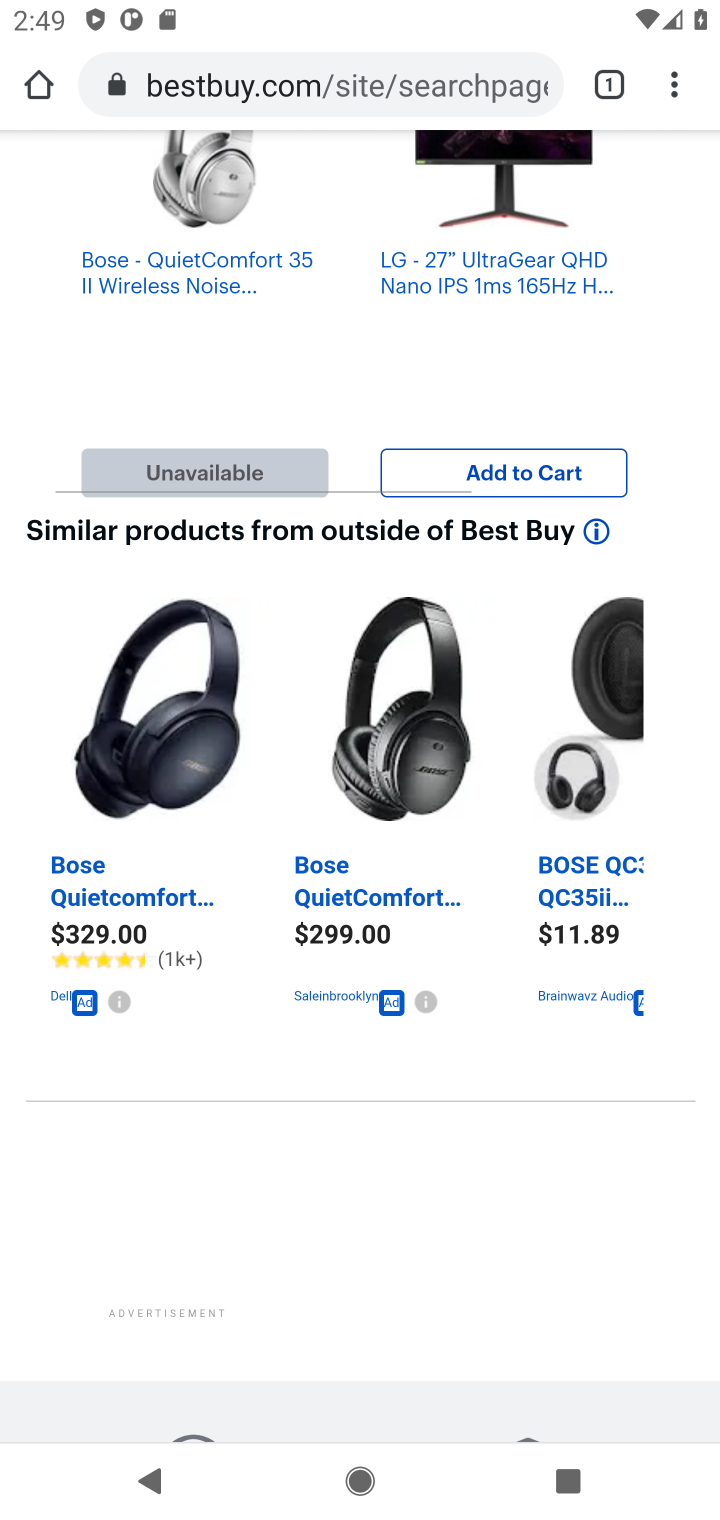
Step 34: drag from (303, 419) to (482, 1167)
Your task to perform on an android device: Add "bose quietcomfort 35" to the cart on bestbuy, then select checkout. Image 35: 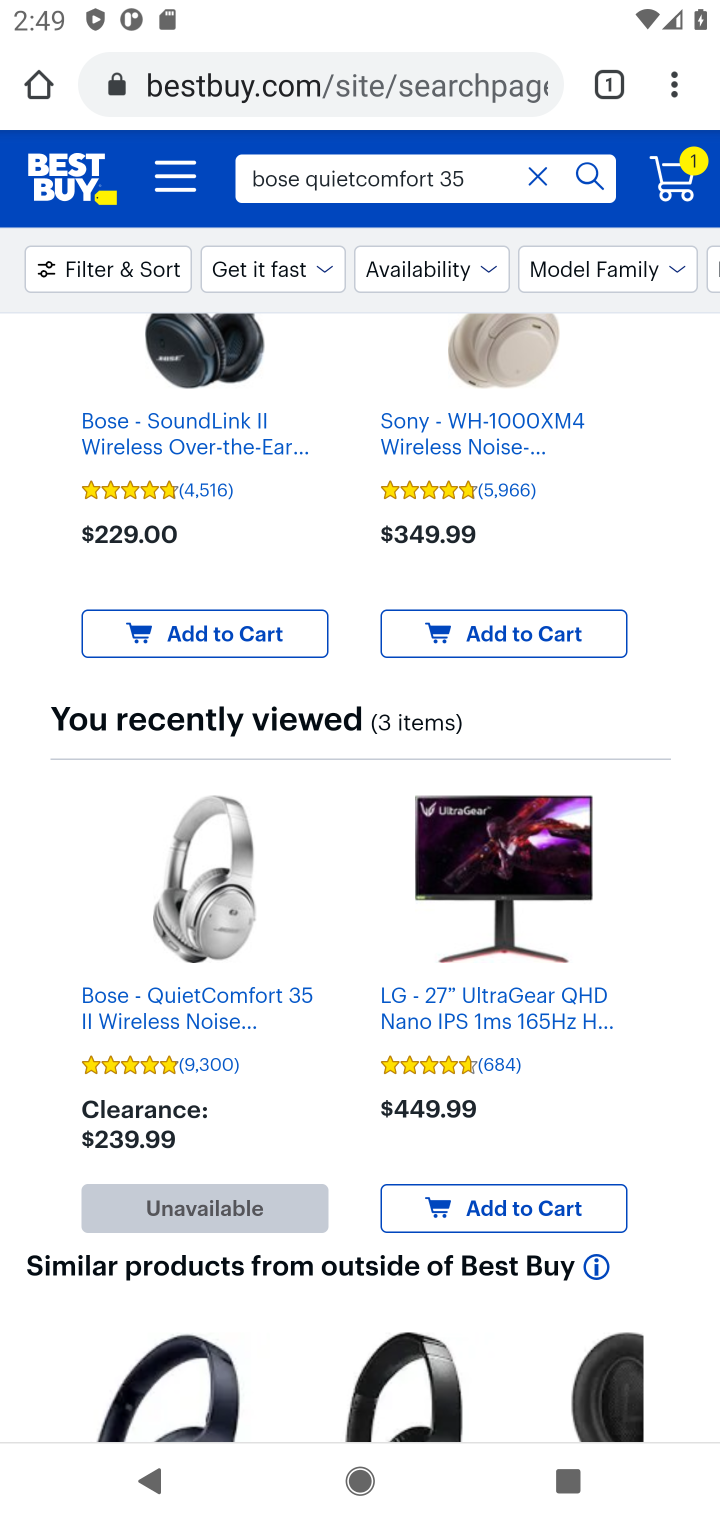
Step 35: click (171, 878)
Your task to perform on an android device: Add "bose quietcomfort 35" to the cart on bestbuy, then select checkout. Image 36: 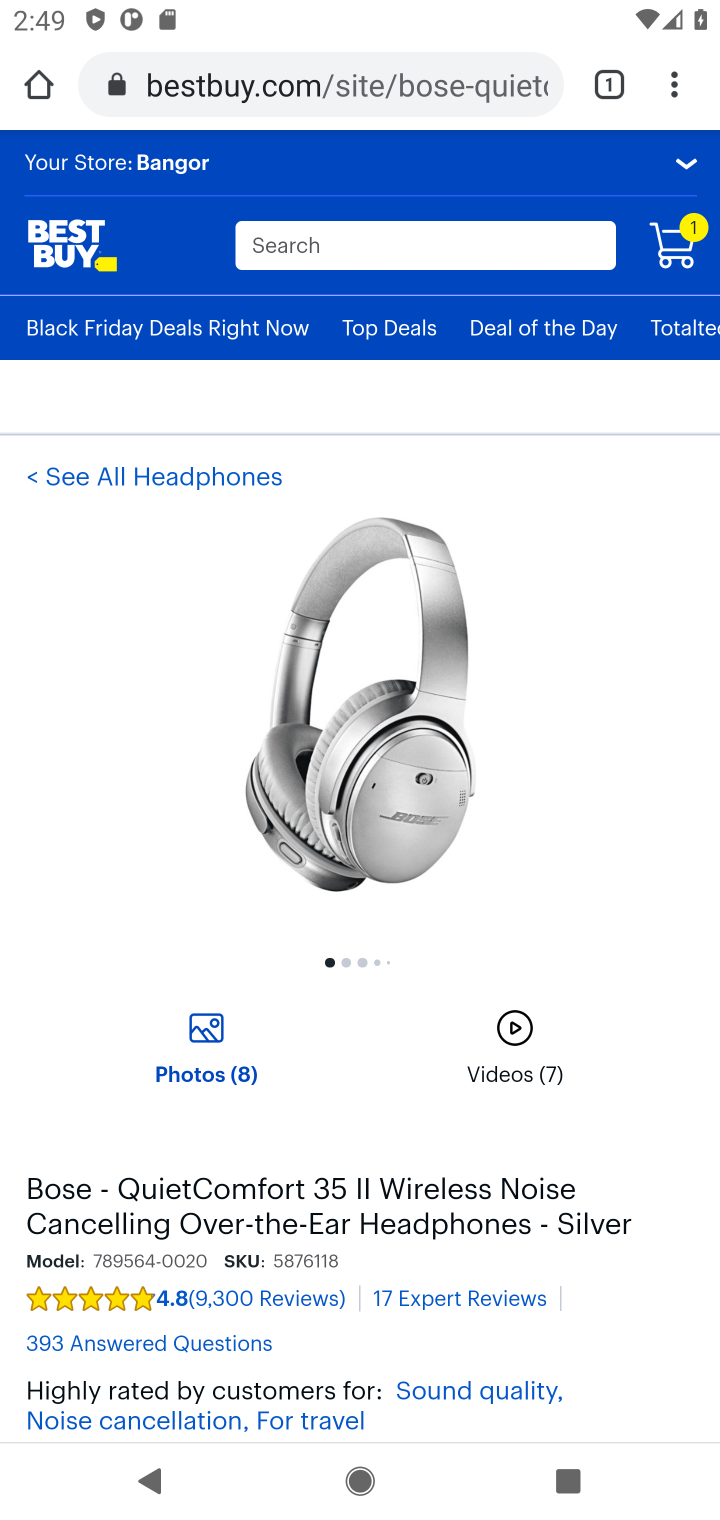
Step 36: task complete